Your task to perform on an android device: set the timer Image 0: 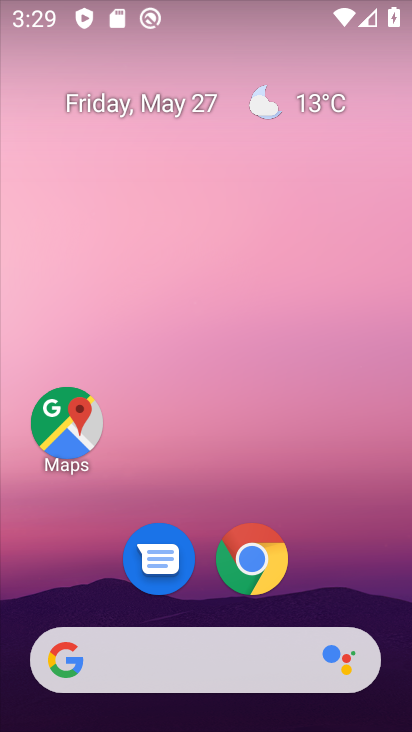
Step 0: drag from (161, 360) to (98, 140)
Your task to perform on an android device: set the timer Image 1: 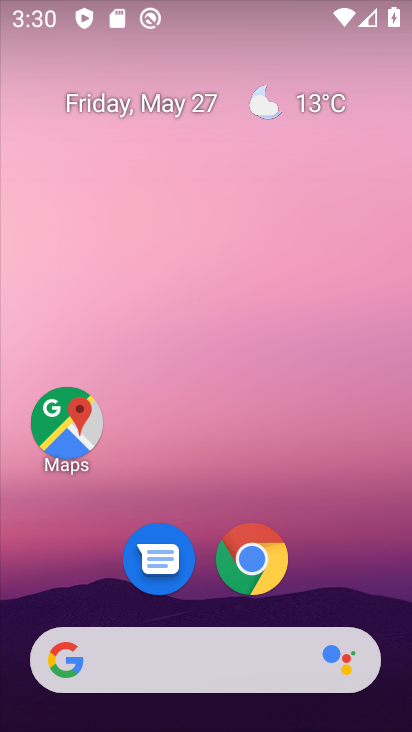
Step 1: drag from (284, 708) to (163, 4)
Your task to perform on an android device: set the timer Image 2: 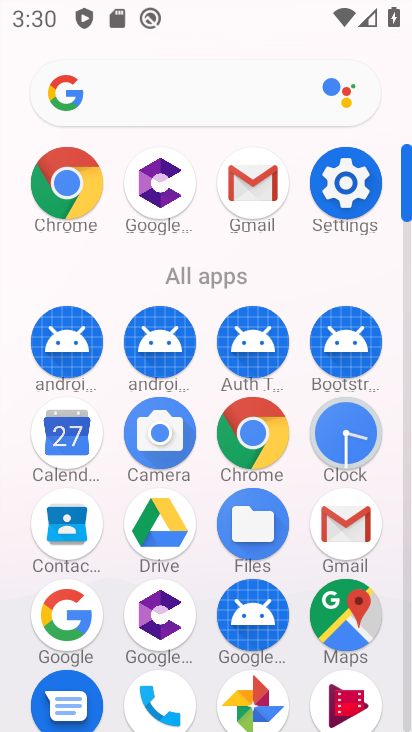
Step 2: drag from (199, 408) to (127, 57)
Your task to perform on an android device: set the timer Image 3: 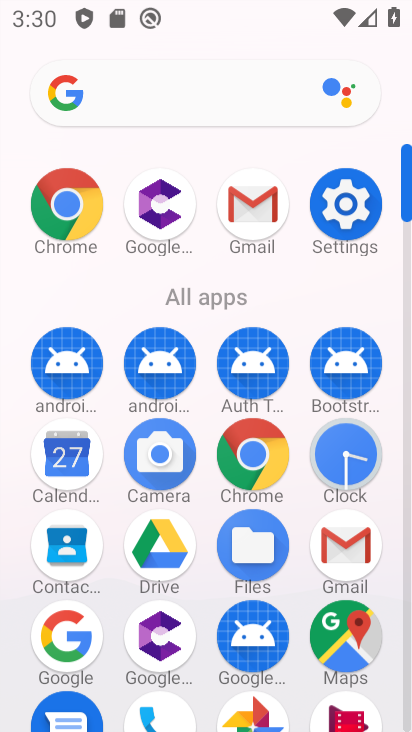
Step 3: click (93, 13)
Your task to perform on an android device: set the timer Image 4: 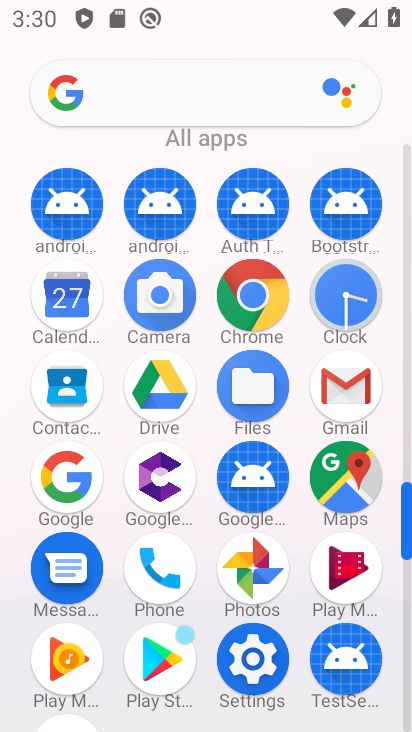
Step 4: click (340, 432)
Your task to perform on an android device: set the timer Image 5: 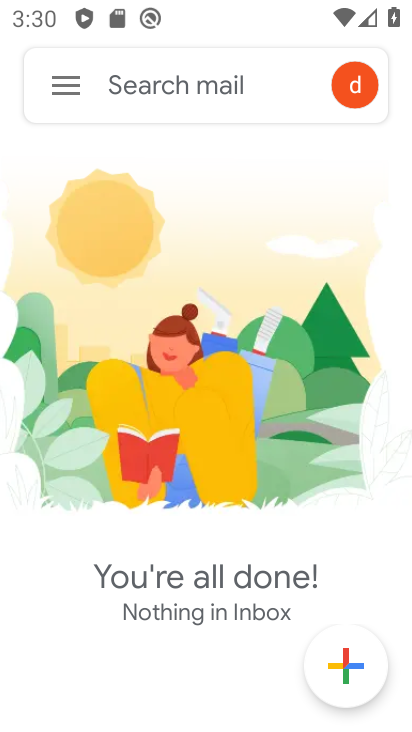
Step 5: drag from (283, 527) to (179, 5)
Your task to perform on an android device: set the timer Image 6: 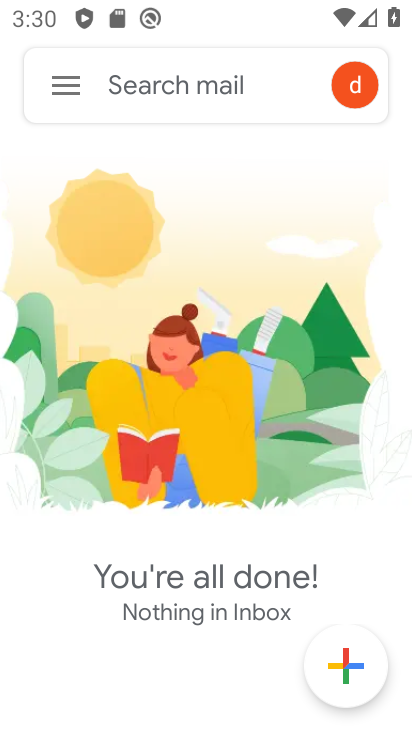
Step 6: click (111, 22)
Your task to perform on an android device: set the timer Image 7: 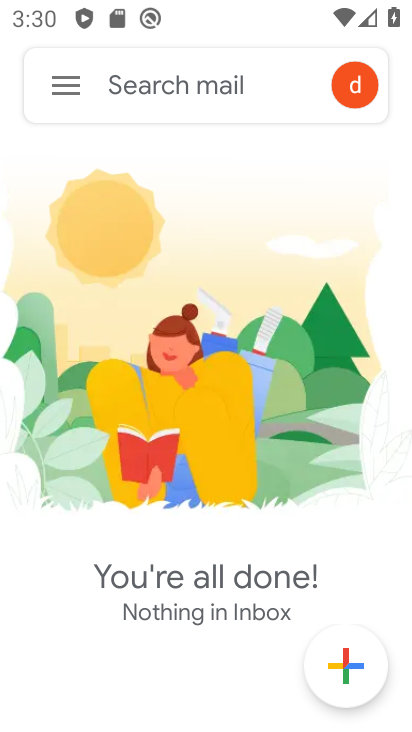
Step 7: click (93, 136)
Your task to perform on an android device: set the timer Image 8: 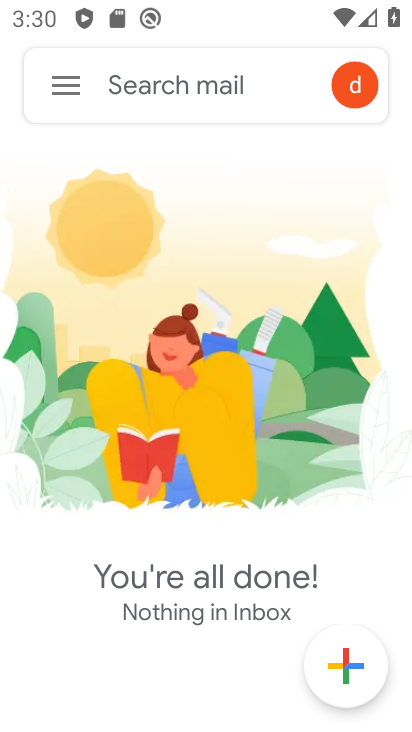
Step 8: press back button
Your task to perform on an android device: set the timer Image 9: 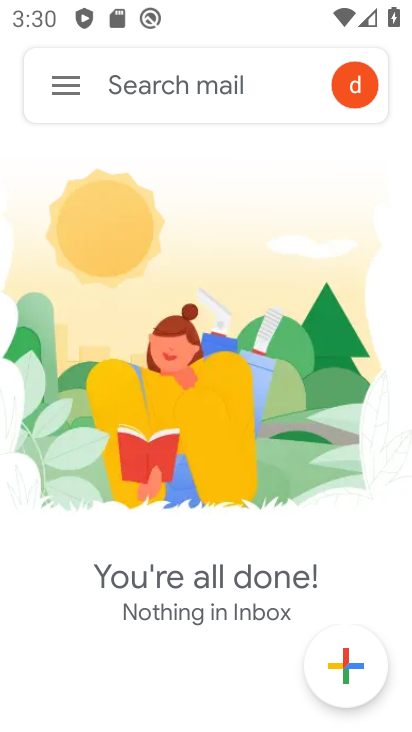
Step 9: click (74, 67)
Your task to perform on an android device: set the timer Image 10: 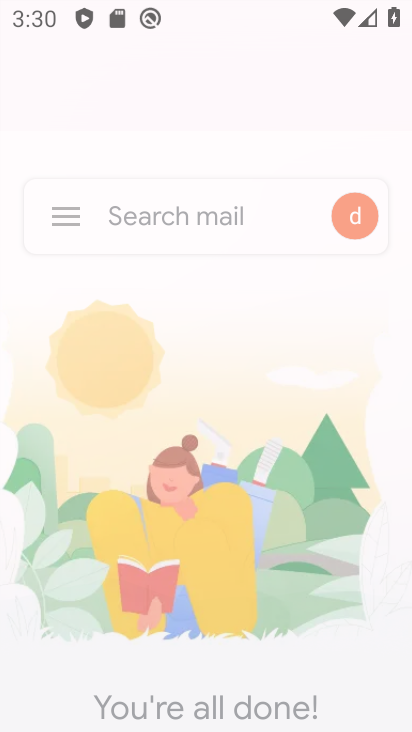
Step 10: drag from (162, 272) to (124, 92)
Your task to perform on an android device: set the timer Image 11: 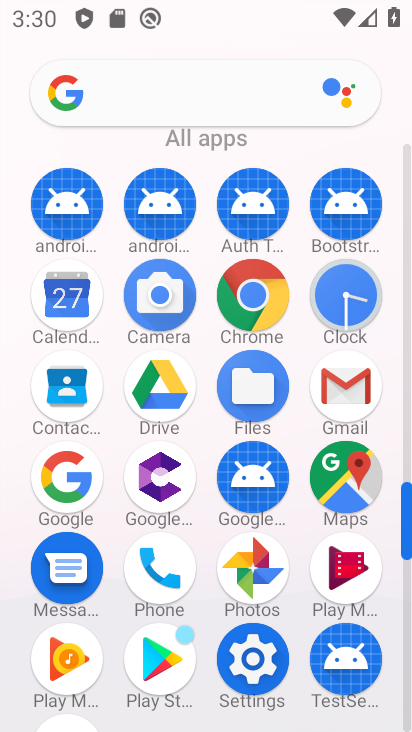
Step 11: click (137, 137)
Your task to perform on an android device: set the timer Image 12: 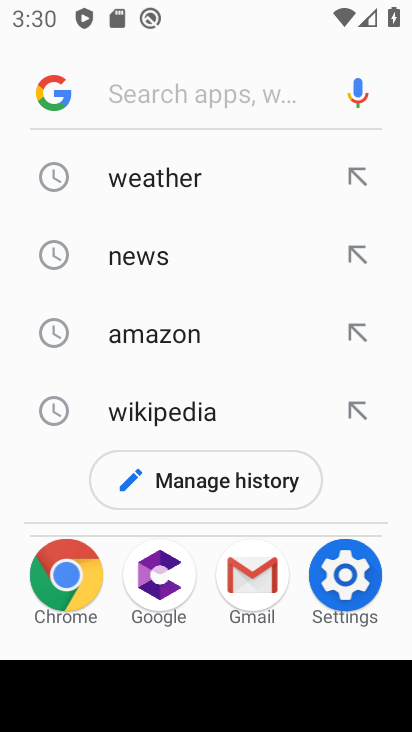
Step 12: drag from (189, 377) to (81, 121)
Your task to perform on an android device: set the timer Image 13: 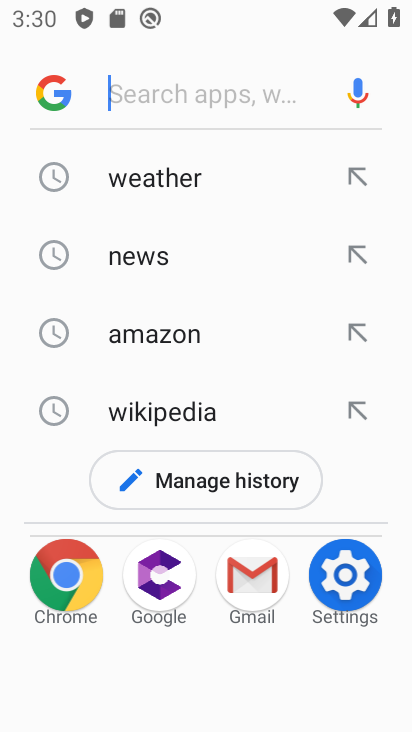
Step 13: press back button
Your task to perform on an android device: set the timer Image 14: 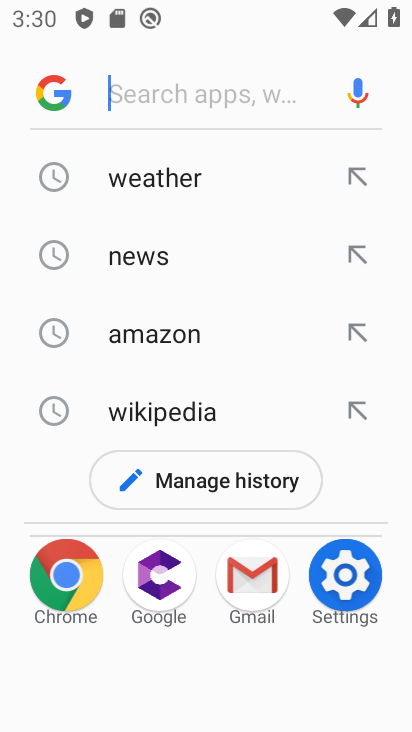
Step 14: press back button
Your task to perform on an android device: set the timer Image 15: 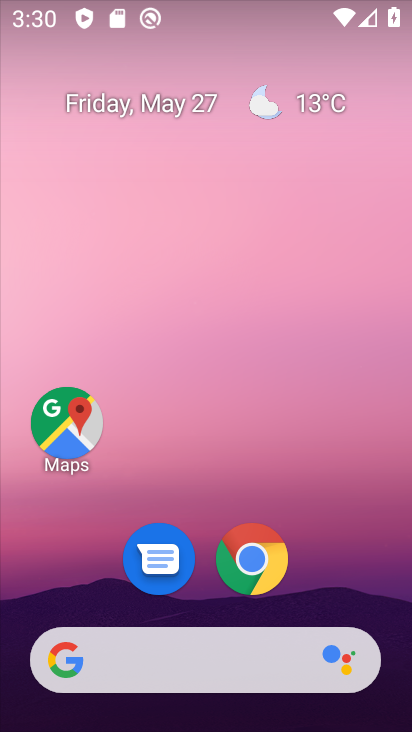
Step 15: press back button
Your task to perform on an android device: set the timer Image 16: 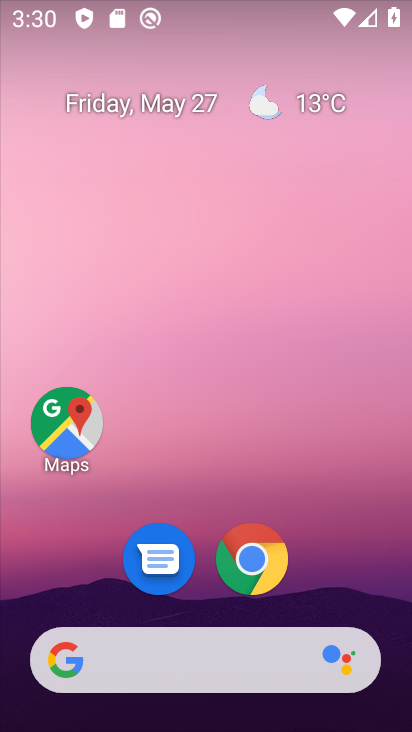
Step 16: press back button
Your task to perform on an android device: set the timer Image 17: 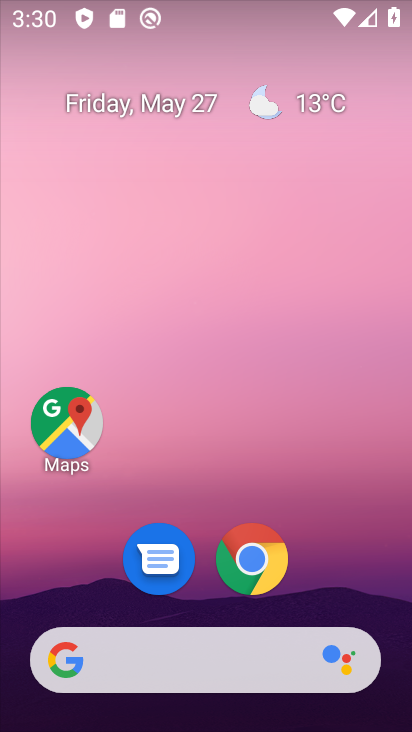
Step 17: press back button
Your task to perform on an android device: set the timer Image 18: 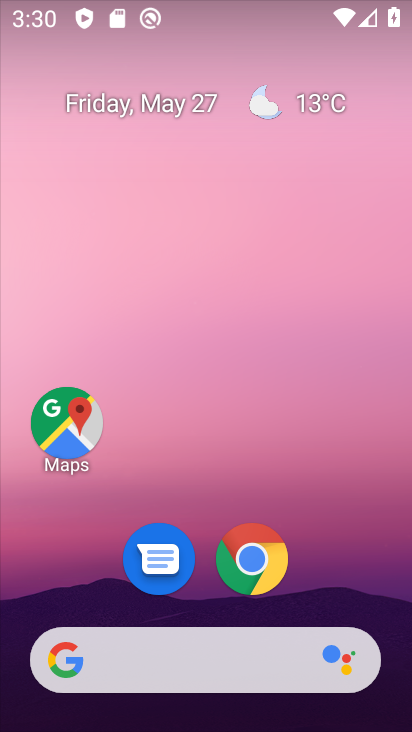
Step 18: drag from (267, 688) to (85, 55)
Your task to perform on an android device: set the timer Image 19: 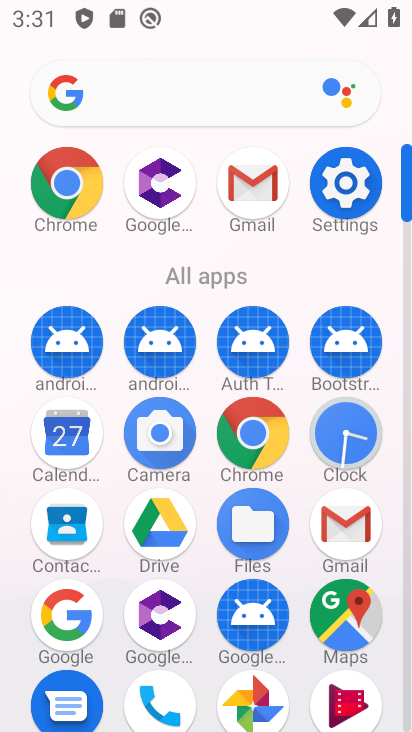
Step 19: click (334, 417)
Your task to perform on an android device: set the timer Image 20: 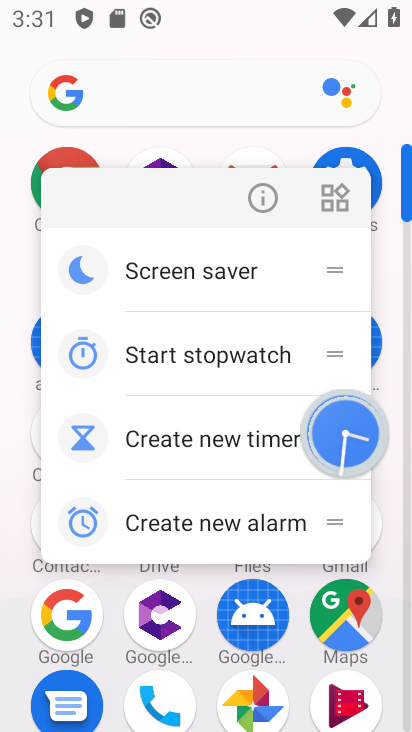
Step 20: click (337, 440)
Your task to perform on an android device: set the timer Image 21: 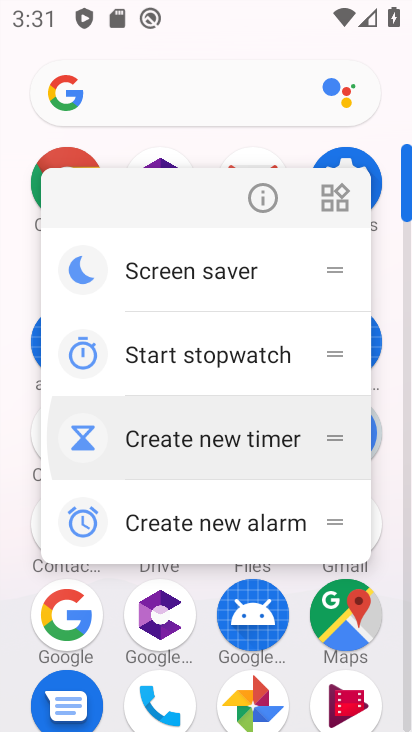
Step 21: click (336, 434)
Your task to perform on an android device: set the timer Image 22: 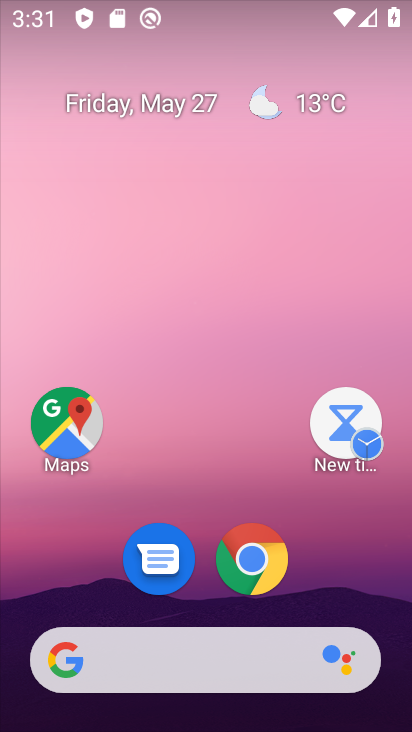
Step 22: drag from (226, 574) to (72, 0)
Your task to perform on an android device: set the timer Image 23: 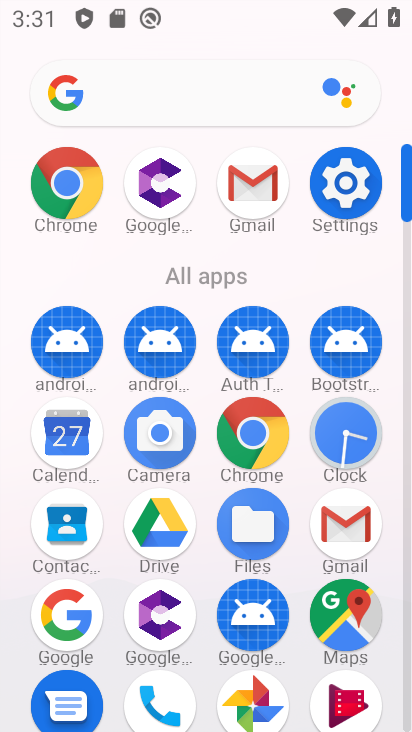
Step 23: drag from (167, 338) to (176, 157)
Your task to perform on an android device: set the timer Image 24: 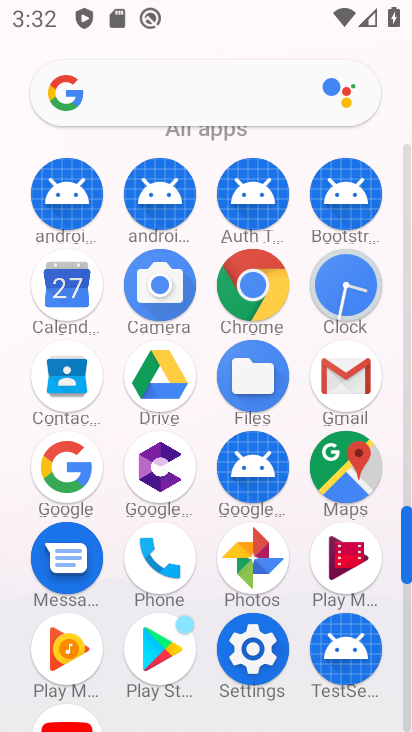
Step 24: click (254, 653)
Your task to perform on an android device: set the timer Image 25: 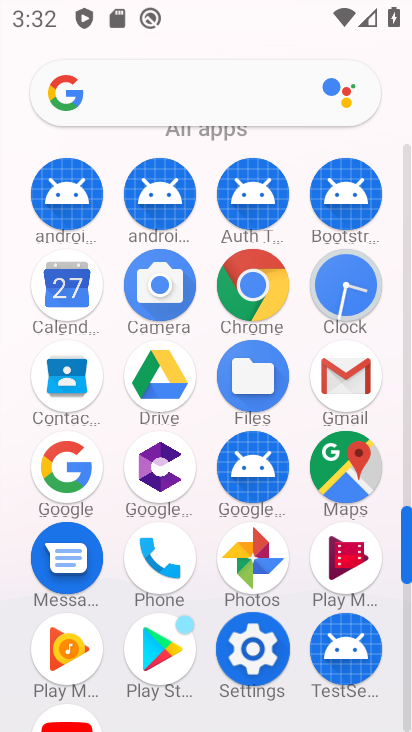
Step 25: click (253, 654)
Your task to perform on an android device: set the timer Image 26: 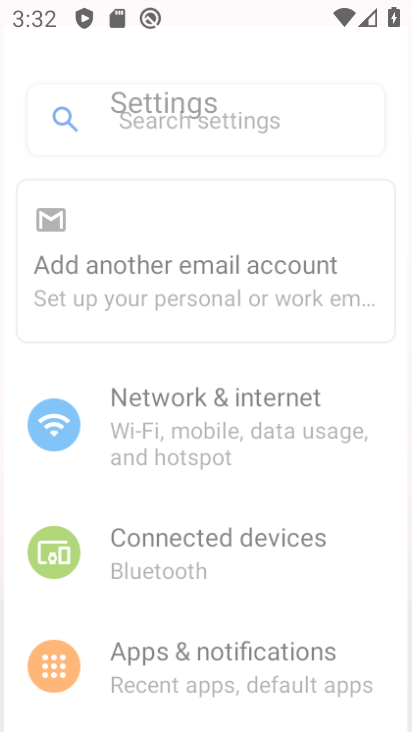
Step 26: click (252, 655)
Your task to perform on an android device: set the timer Image 27: 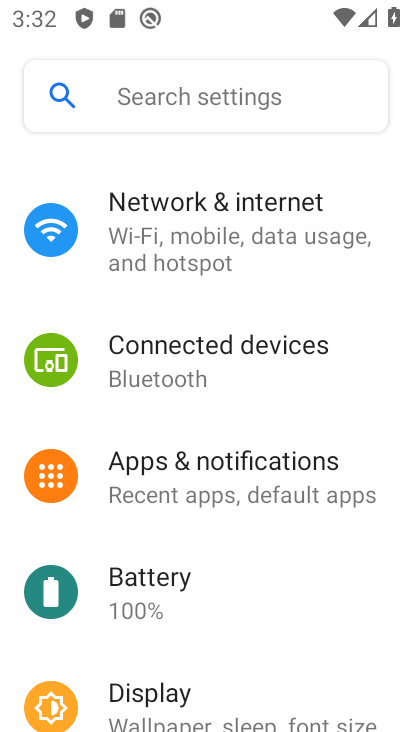
Step 27: click (249, 661)
Your task to perform on an android device: set the timer Image 28: 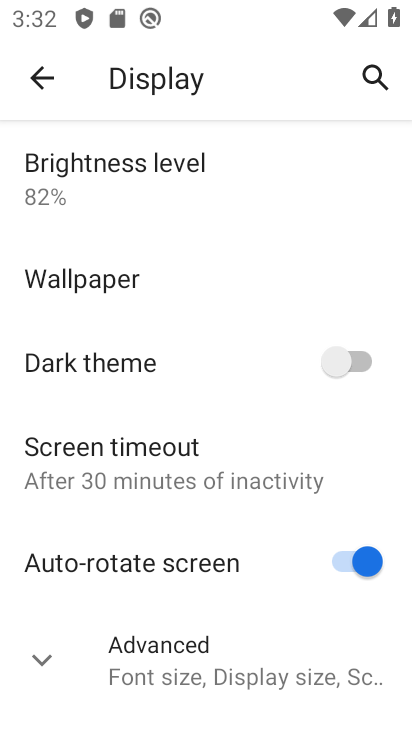
Step 28: click (31, 79)
Your task to perform on an android device: set the timer Image 29: 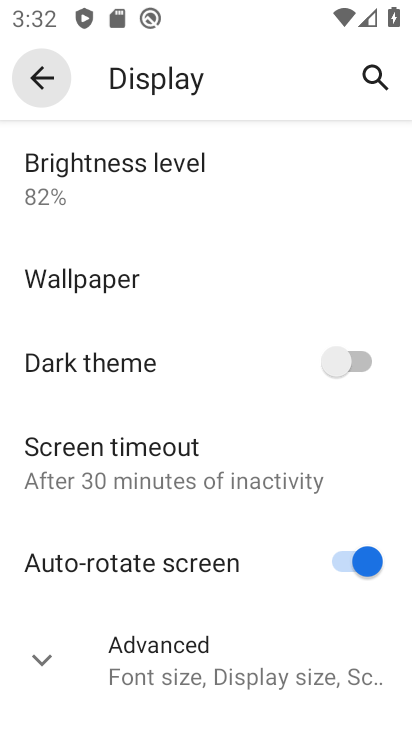
Step 29: click (31, 79)
Your task to perform on an android device: set the timer Image 30: 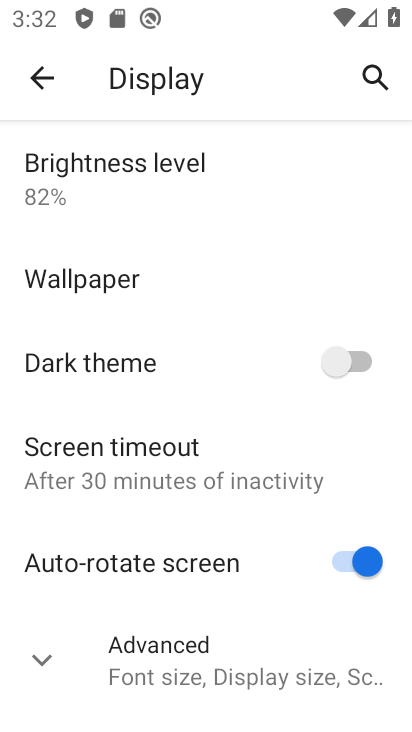
Step 30: click (31, 79)
Your task to perform on an android device: set the timer Image 31: 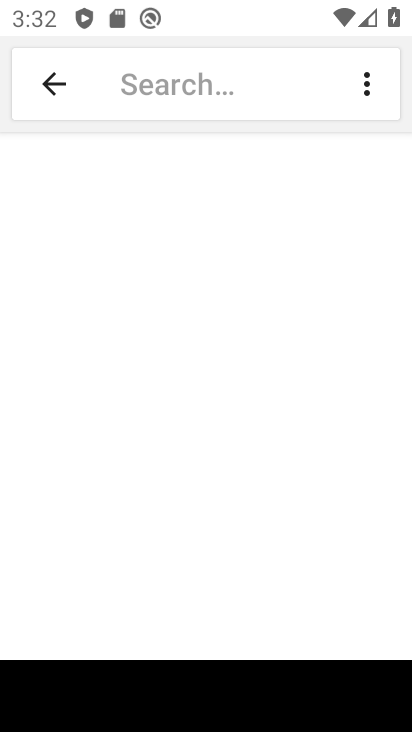
Step 31: drag from (197, 492) to (186, 237)
Your task to perform on an android device: set the timer Image 32: 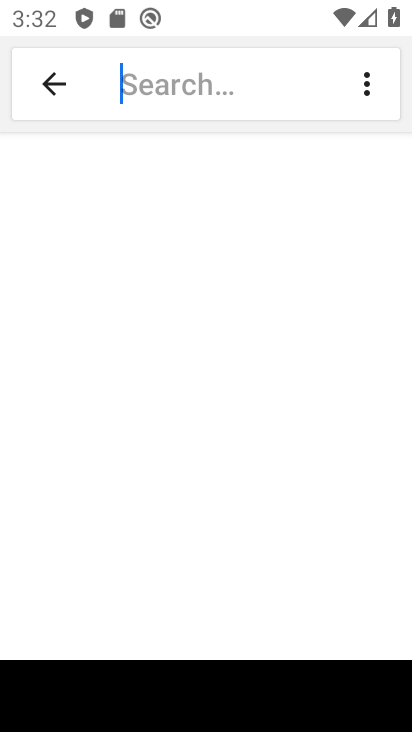
Step 32: drag from (190, 487) to (170, 214)
Your task to perform on an android device: set the timer Image 33: 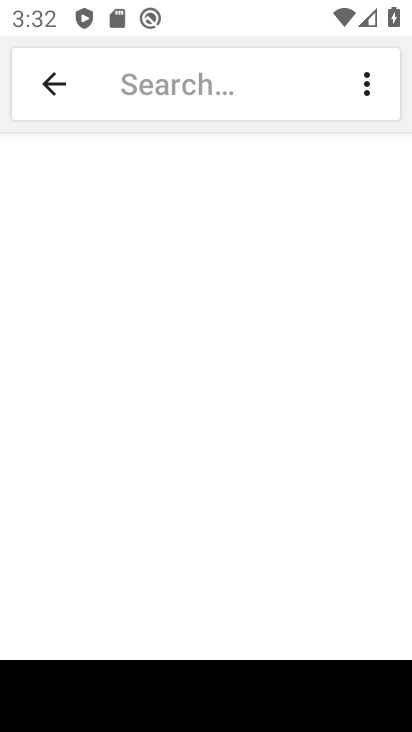
Step 33: drag from (130, 192) to (130, 158)
Your task to perform on an android device: set the timer Image 34: 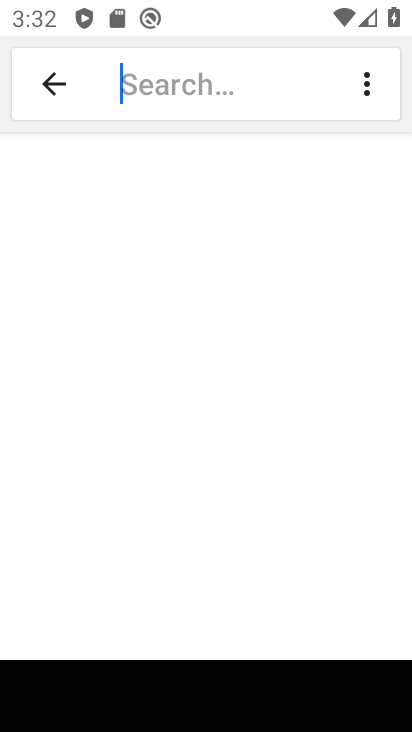
Step 34: drag from (165, 467) to (168, 173)
Your task to perform on an android device: set the timer Image 35: 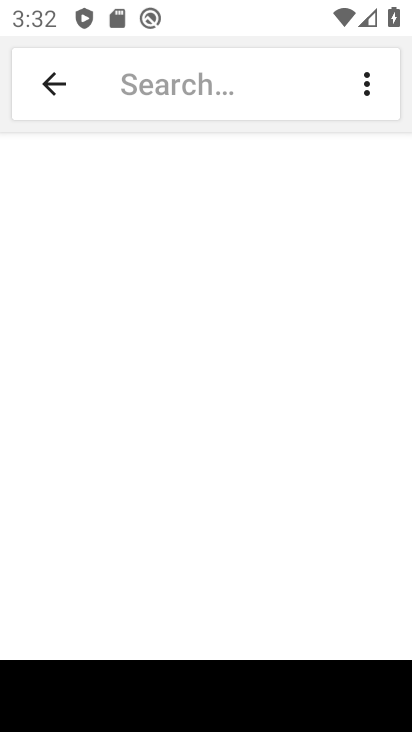
Step 35: drag from (188, 218) to (189, 157)
Your task to perform on an android device: set the timer Image 36: 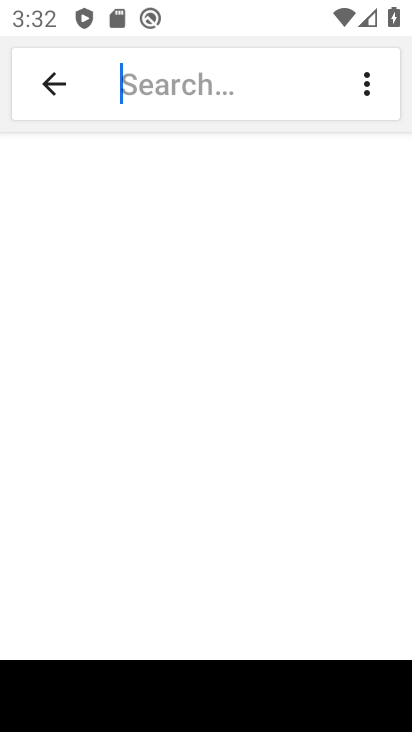
Step 36: click (161, 109)
Your task to perform on an android device: set the timer Image 37: 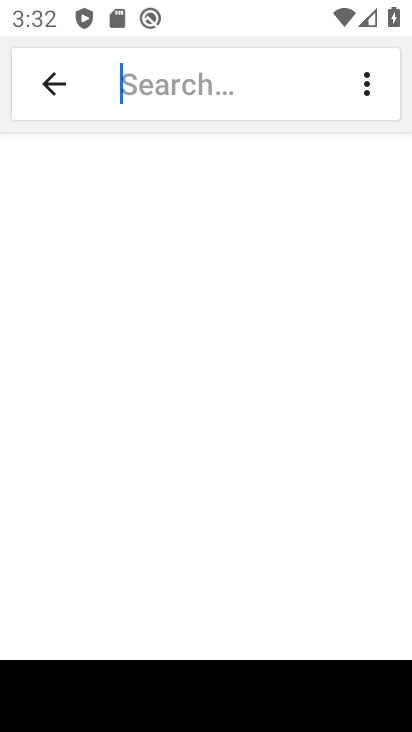
Step 37: click (54, 84)
Your task to perform on an android device: set the timer Image 38: 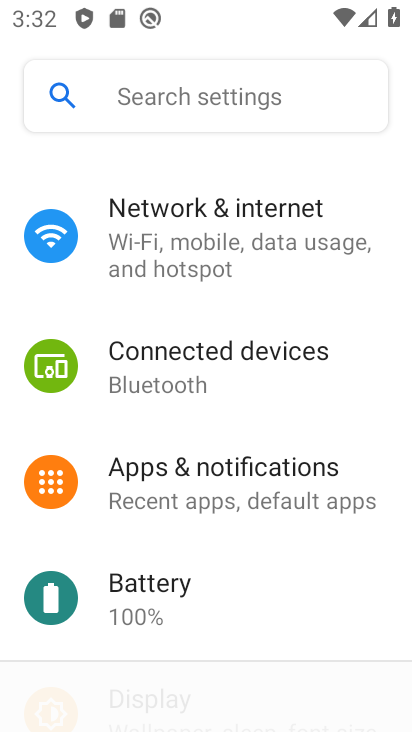
Step 38: click (55, 84)
Your task to perform on an android device: set the timer Image 39: 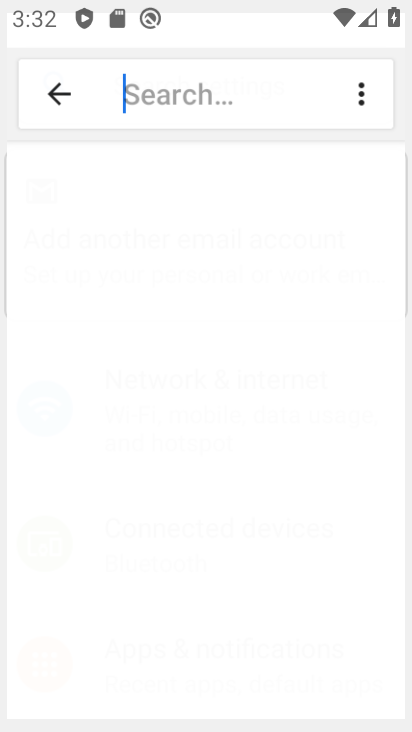
Step 39: drag from (180, 216) to (186, 141)
Your task to perform on an android device: set the timer Image 40: 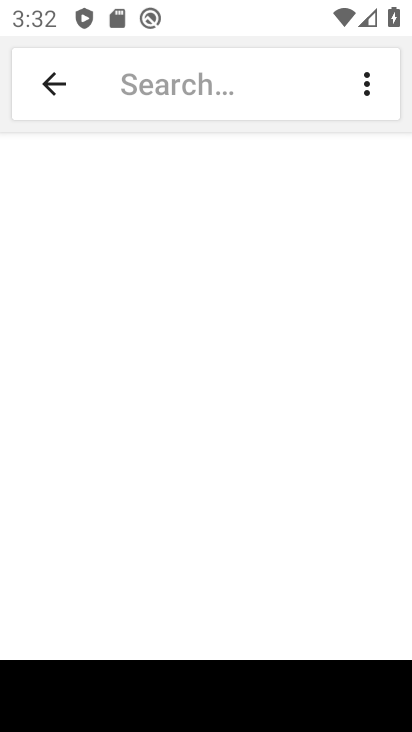
Step 40: drag from (196, 465) to (192, 95)
Your task to perform on an android device: set the timer Image 41: 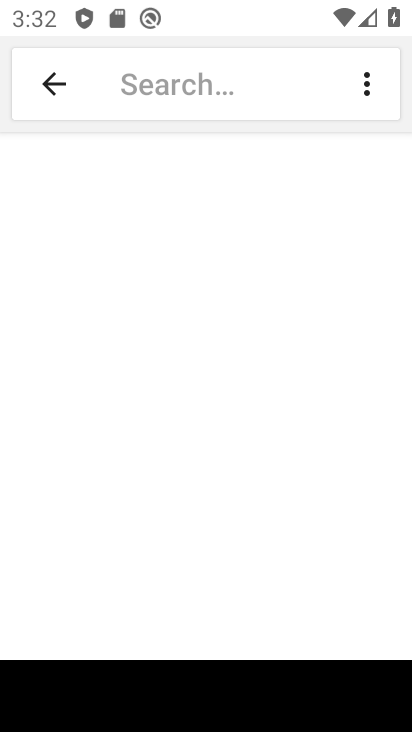
Step 41: drag from (173, 383) to (160, 49)
Your task to perform on an android device: set the timer Image 42: 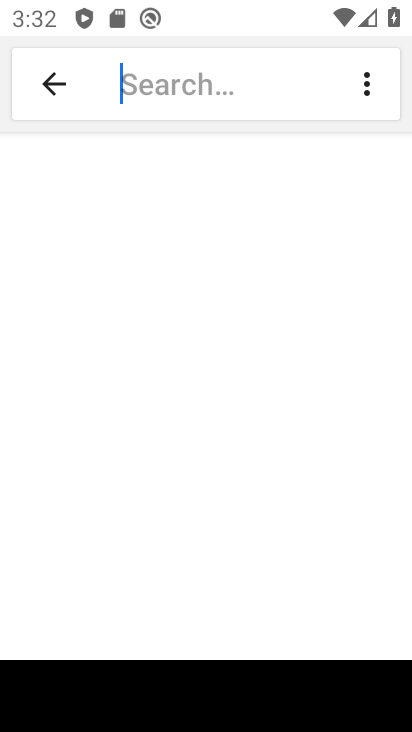
Step 42: click (52, 82)
Your task to perform on an android device: set the timer Image 43: 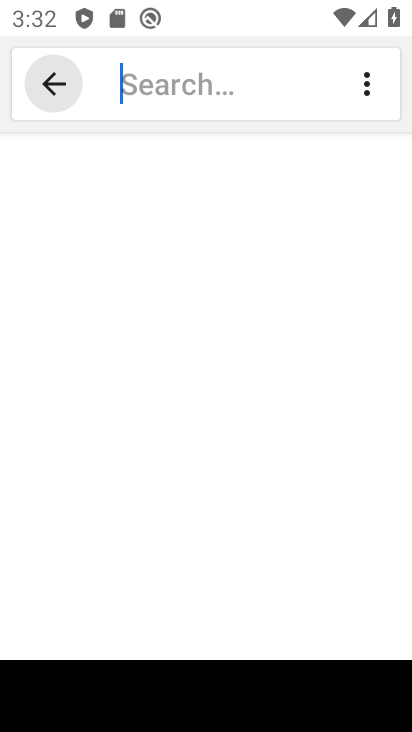
Step 43: click (53, 82)
Your task to perform on an android device: set the timer Image 44: 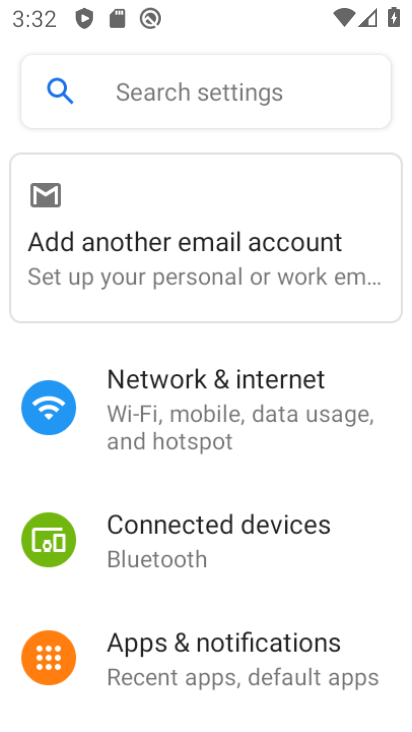
Step 44: click (53, 82)
Your task to perform on an android device: set the timer Image 45: 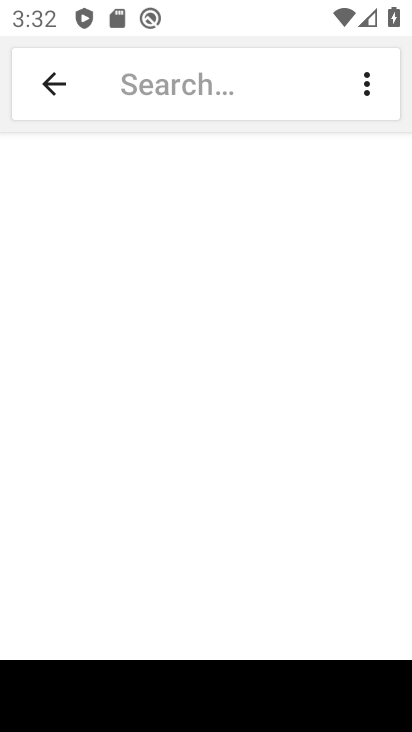
Step 45: drag from (195, 174) to (195, 129)
Your task to perform on an android device: set the timer Image 46: 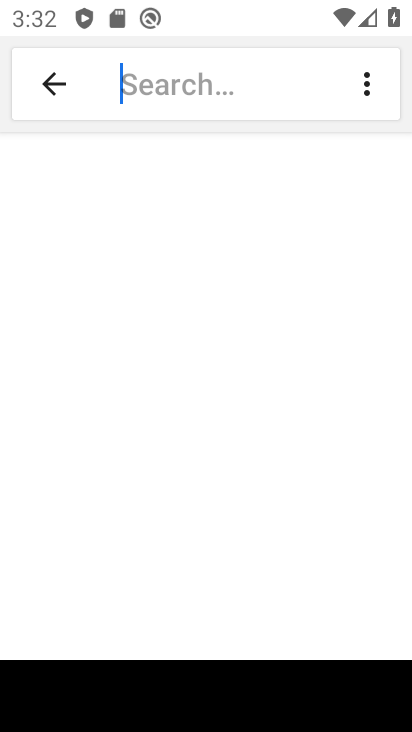
Step 46: click (75, 1)
Your task to perform on an android device: set the timer Image 47: 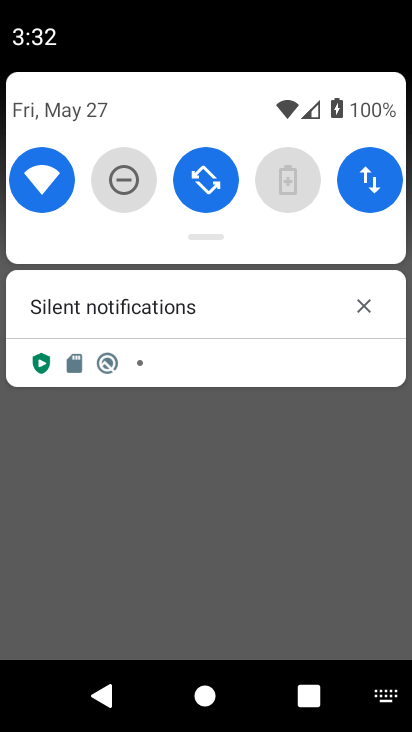
Step 47: click (55, 81)
Your task to perform on an android device: set the timer Image 48: 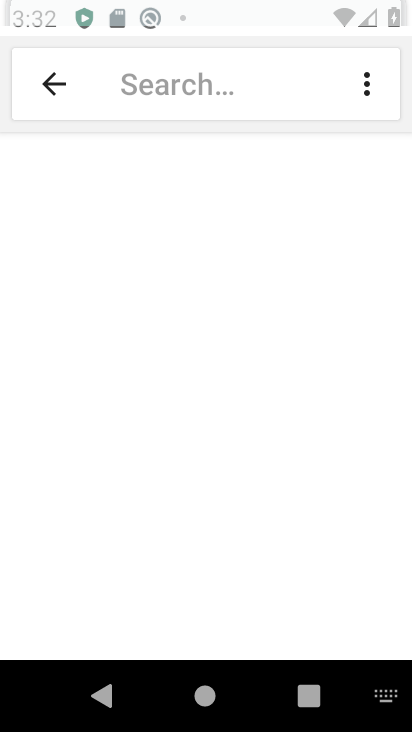
Step 48: click (55, 81)
Your task to perform on an android device: set the timer Image 49: 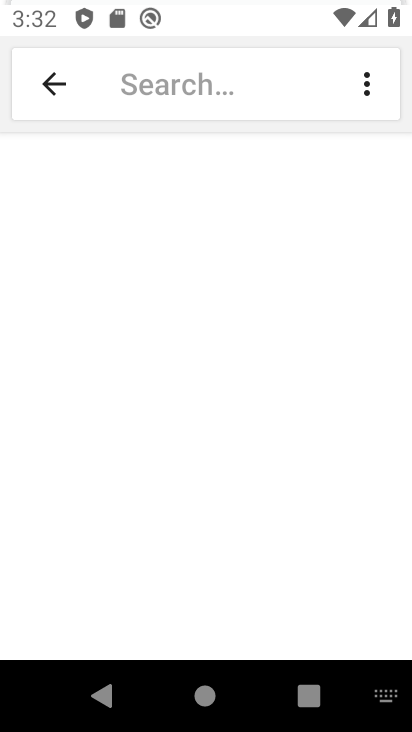
Step 49: drag from (219, 408) to (110, 112)
Your task to perform on an android device: set the timer Image 50: 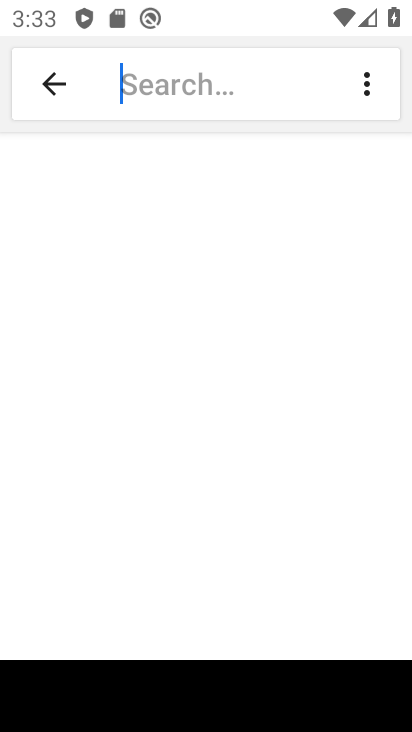
Step 50: click (45, 99)
Your task to perform on an android device: set the timer Image 51: 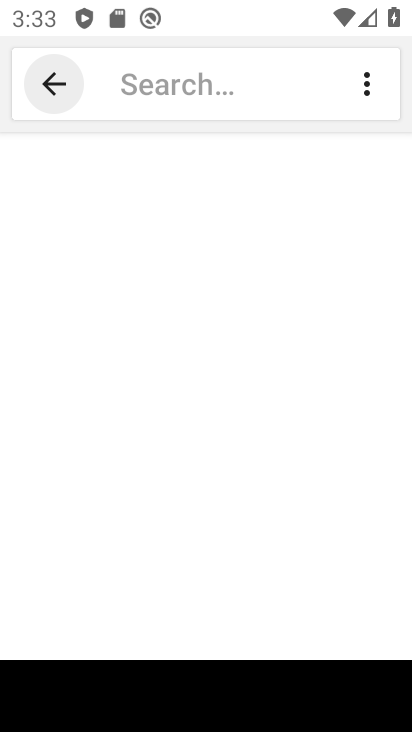
Step 51: click (47, 86)
Your task to perform on an android device: set the timer Image 52: 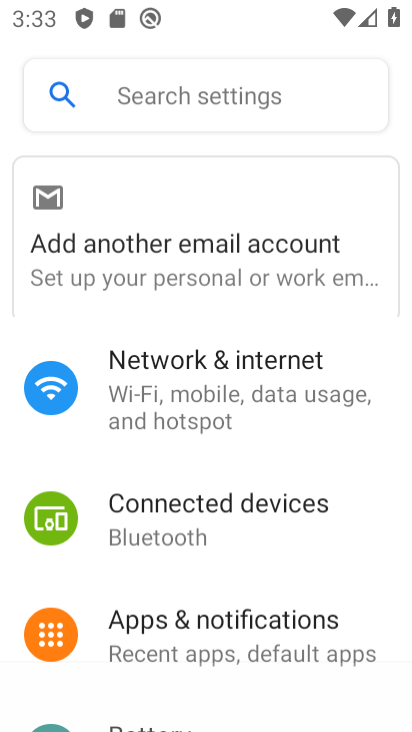
Step 52: click (47, 86)
Your task to perform on an android device: set the timer Image 53: 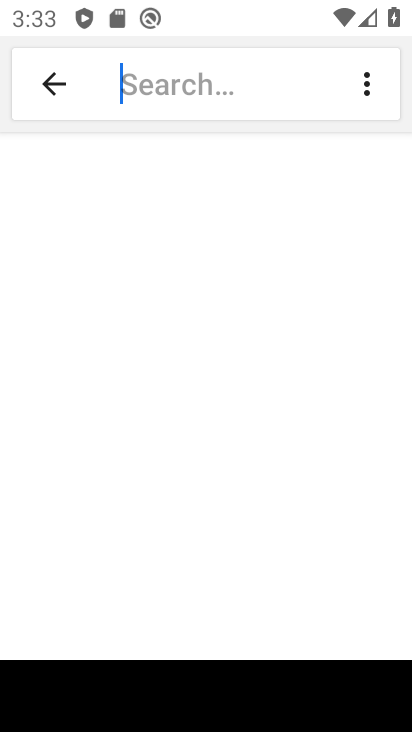
Step 53: drag from (180, 313) to (128, 40)
Your task to perform on an android device: set the timer Image 54: 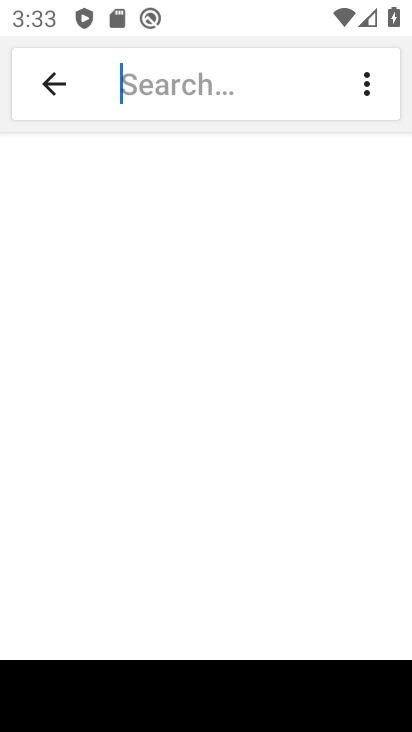
Step 54: click (53, 78)
Your task to perform on an android device: set the timer Image 55: 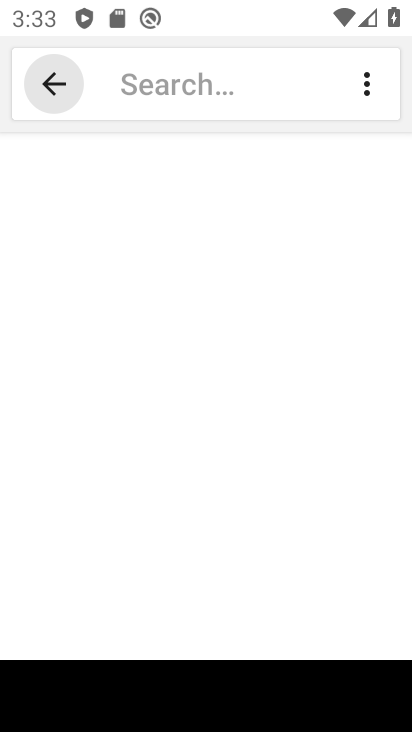
Step 55: click (54, 87)
Your task to perform on an android device: set the timer Image 56: 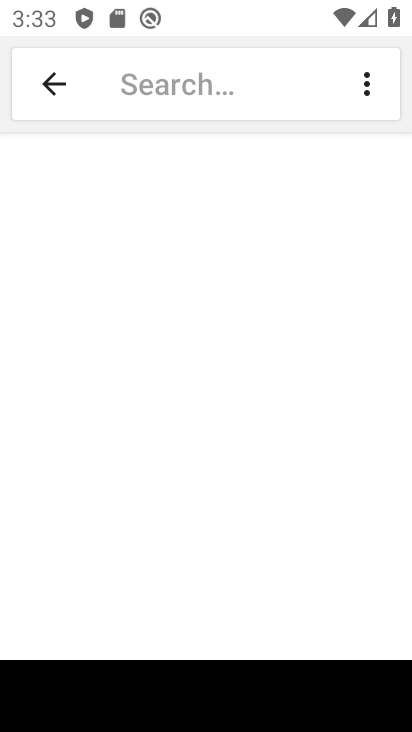
Step 56: click (54, 87)
Your task to perform on an android device: set the timer Image 57: 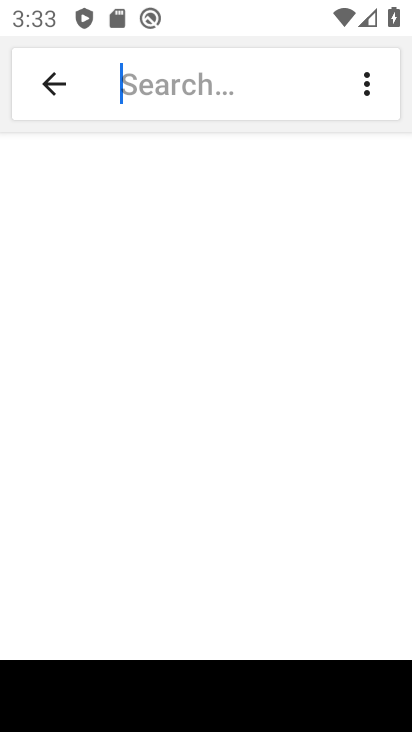
Step 57: drag from (168, 426) to (167, 179)
Your task to perform on an android device: set the timer Image 58: 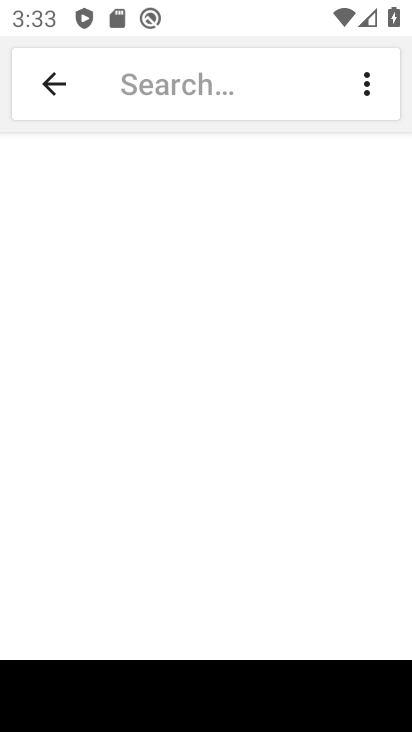
Step 58: drag from (216, 490) to (153, 120)
Your task to perform on an android device: set the timer Image 59: 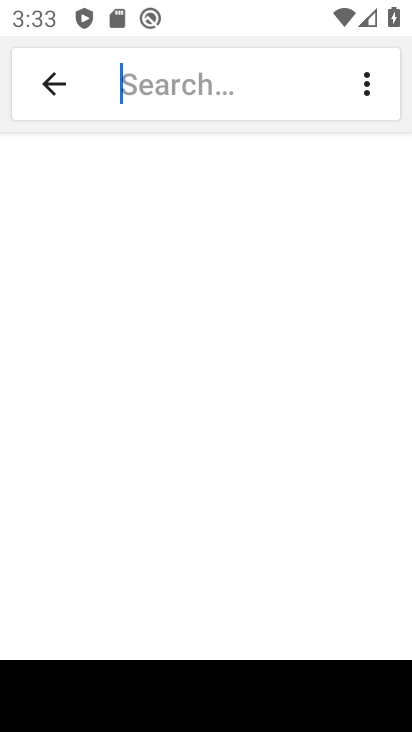
Step 59: drag from (199, 368) to (185, 98)
Your task to perform on an android device: set the timer Image 60: 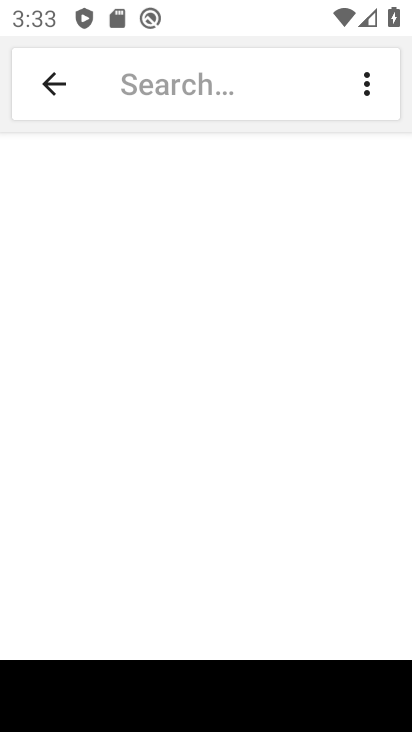
Step 60: drag from (272, 579) to (223, 101)
Your task to perform on an android device: set the timer Image 61: 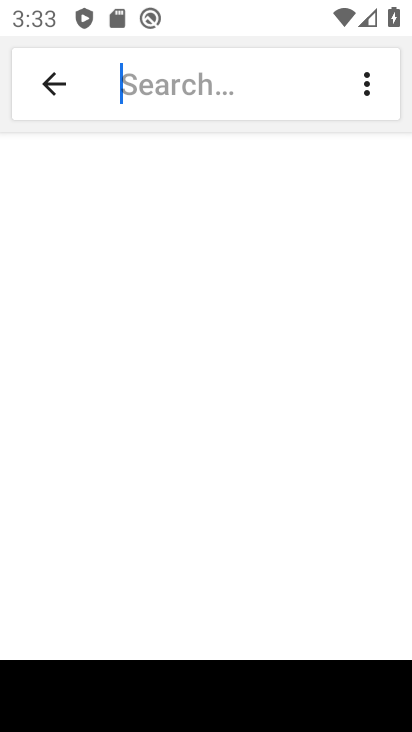
Step 61: drag from (232, 519) to (173, 23)
Your task to perform on an android device: set the timer Image 62: 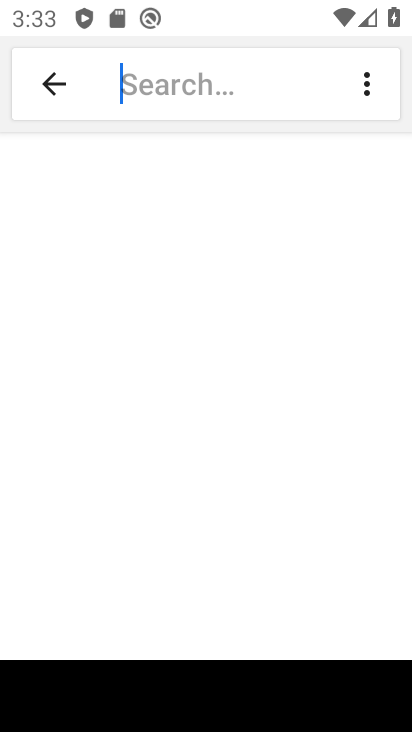
Step 62: drag from (227, 481) to (199, 146)
Your task to perform on an android device: set the timer Image 63: 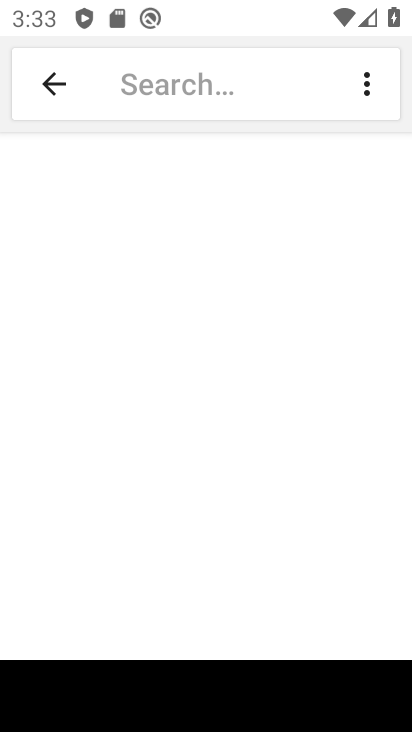
Step 63: drag from (150, 221) to (132, 56)
Your task to perform on an android device: set the timer Image 64: 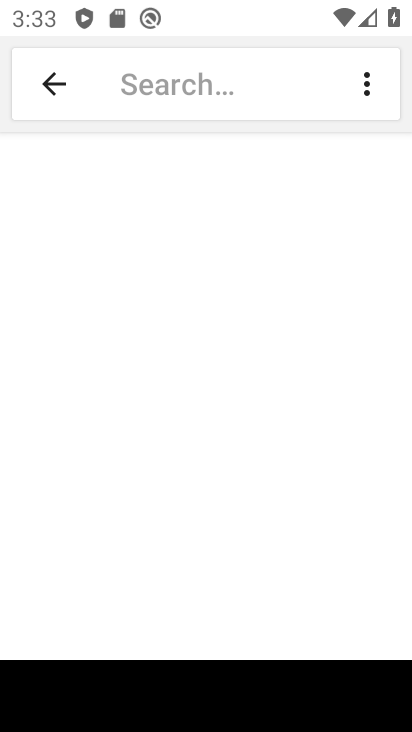
Step 64: click (49, 88)
Your task to perform on an android device: set the timer Image 65: 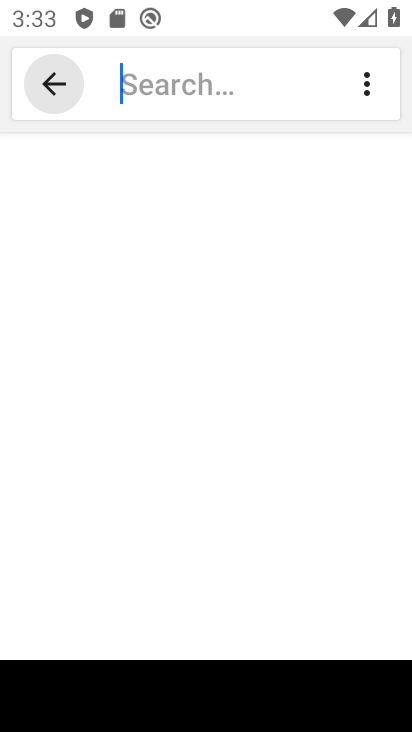
Step 65: click (49, 88)
Your task to perform on an android device: set the timer Image 66: 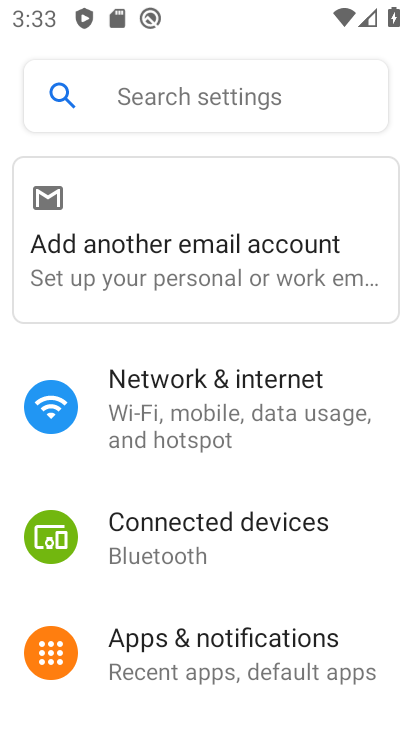
Step 66: click (176, 175)
Your task to perform on an android device: set the timer Image 67: 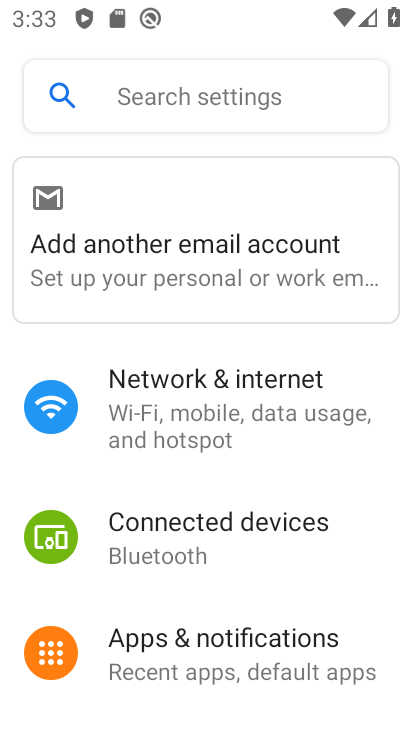
Step 67: drag from (196, 501) to (196, 132)
Your task to perform on an android device: set the timer Image 68: 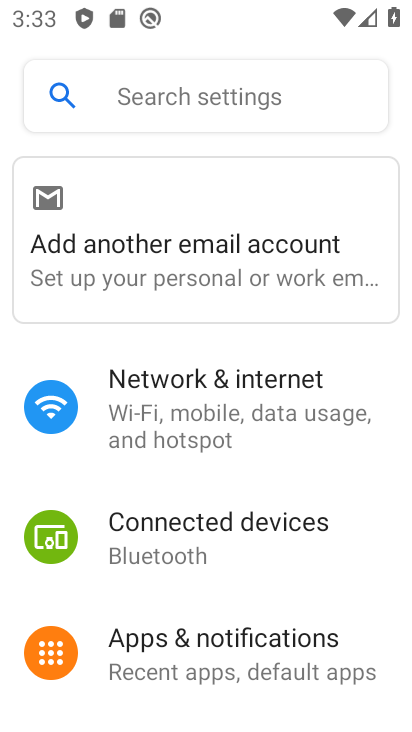
Step 68: drag from (210, 270) to (219, 164)
Your task to perform on an android device: set the timer Image 69: 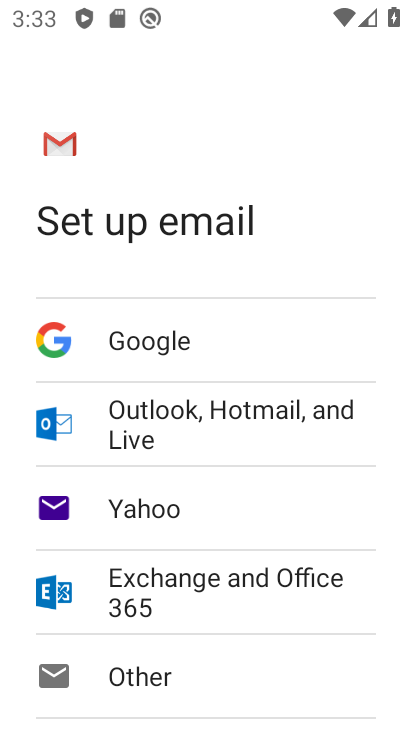
Step 69: drag from (217, 379) to (217, 228)
Your task to perform on an android device: set the timer Image 70: 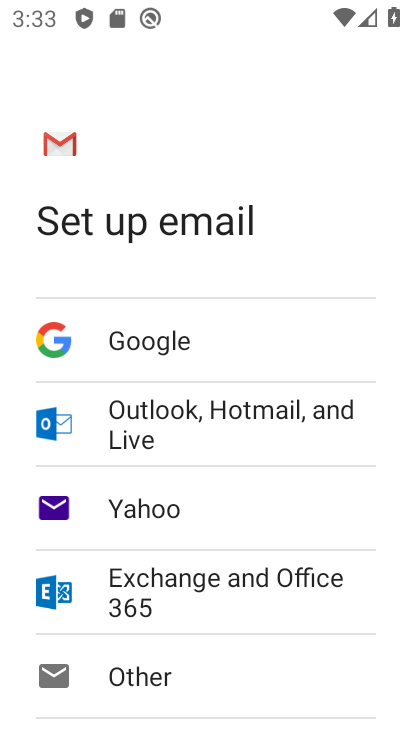
Step 70: click (170, 192)
Your task to perform on an android device: set the timer Image 71: 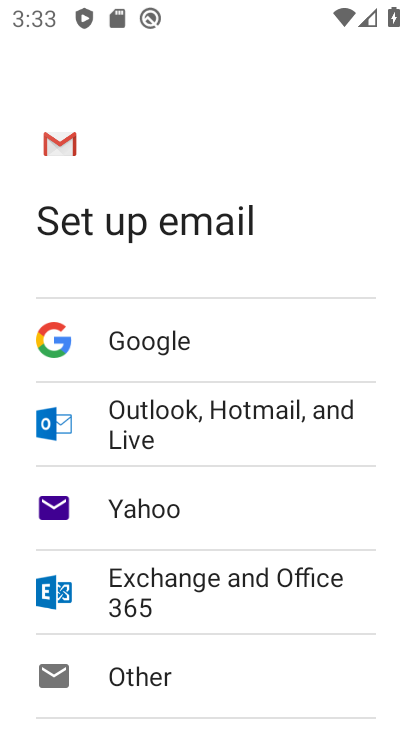
Step 71: drag from (207, 510) to (169, 85)
Your task to perform on an android device: set the timer Image 72: 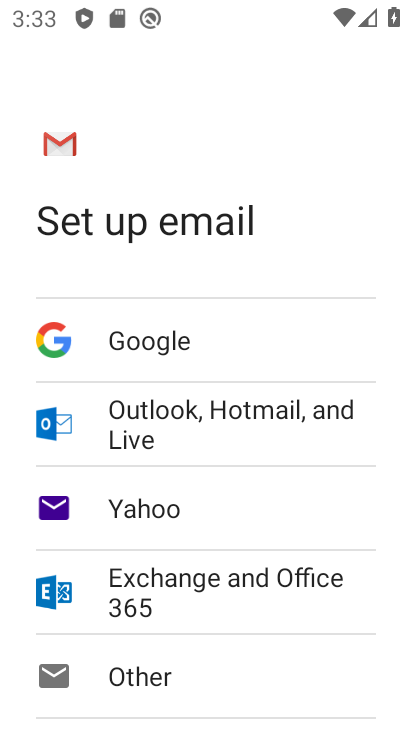
Step 72: drag from (115, 95) to (76, 81)
Your task to perform on an android device: set the timer Image 73: 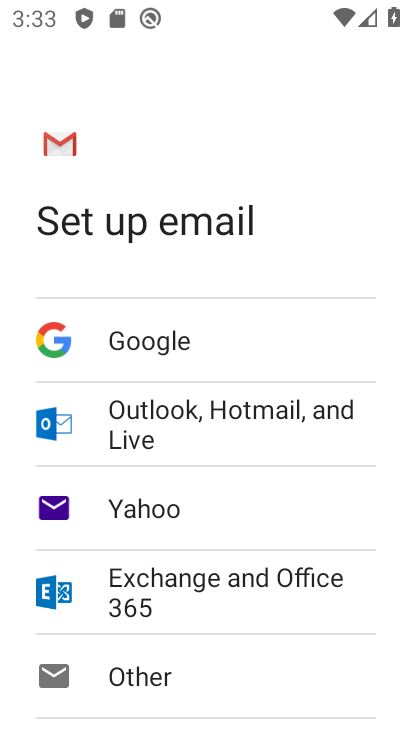
Step 73: drag from (96, 311) to (77, 184)
Your task to perform on an android device: set the timer Image 74: 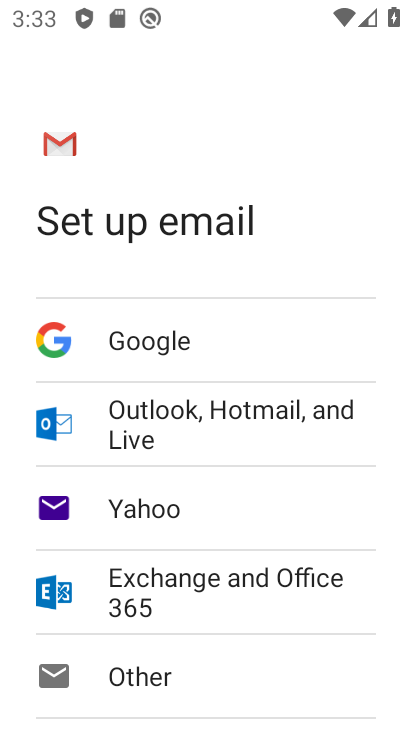
Step 74: press back button
Your task to perform on an android device: set the timer Image 75: 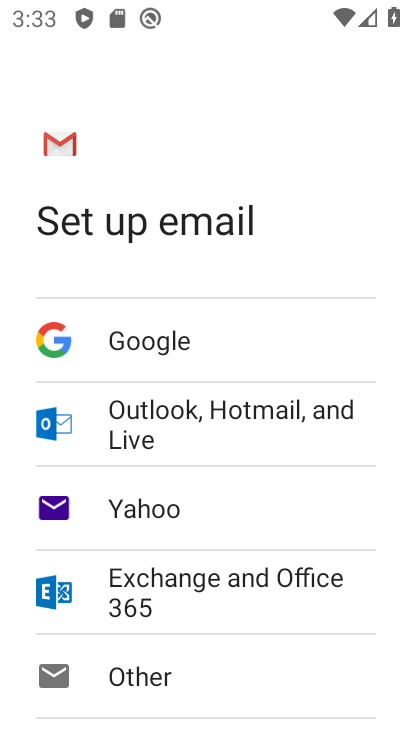
Step 75: press back button
Your task to perform on an android device: set the timer Image 76: 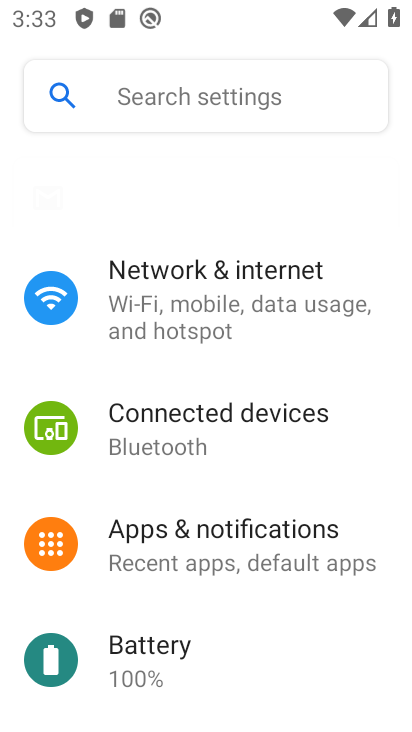
Step 76: press back button
Your task to perform on an android device: set the timer Image 77: 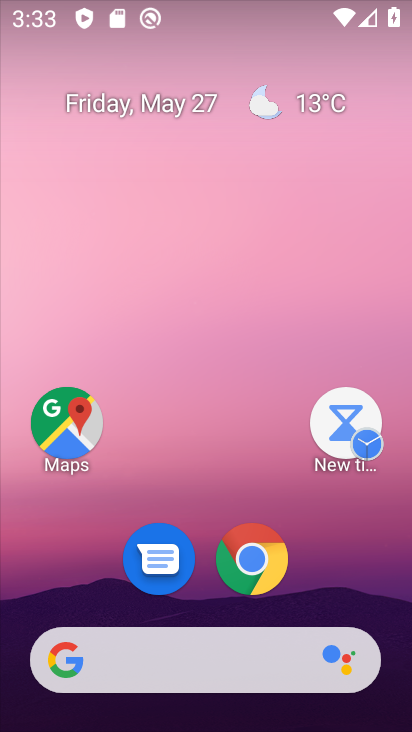
Step 77: drag from (234, 579) to (163, 123)
Your task to perform on an android device: set the timer Image 78: 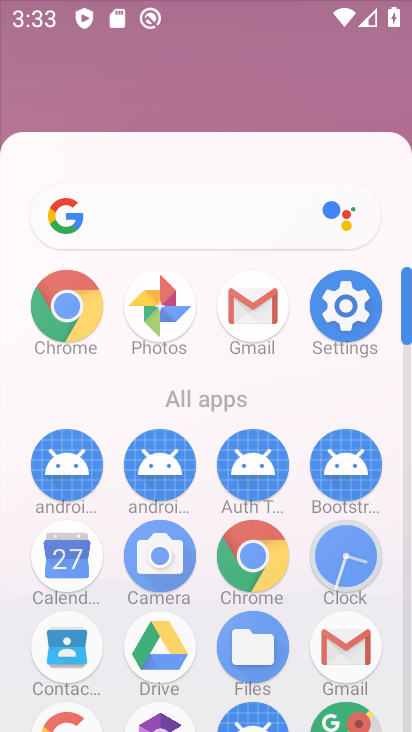
Step 78: drag from (350, 641) to (253, 50)
Your task to perform on an android device: set the timer Image 79: 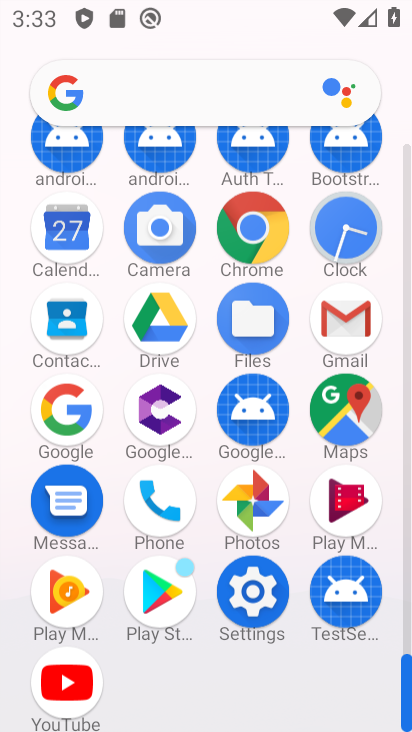
Step 79: drag from (274, 299) to (263, 222)
Your task to perform on an android device: set the timer Image 80: 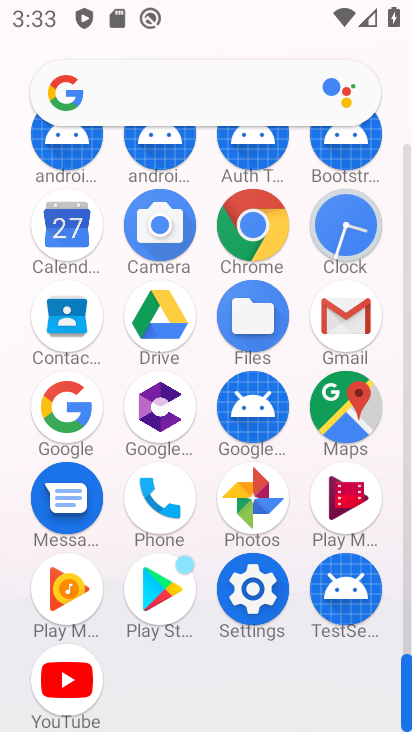
Step 80: click (350, 217)
Your task to perform on an android device: set the timer Image 81: 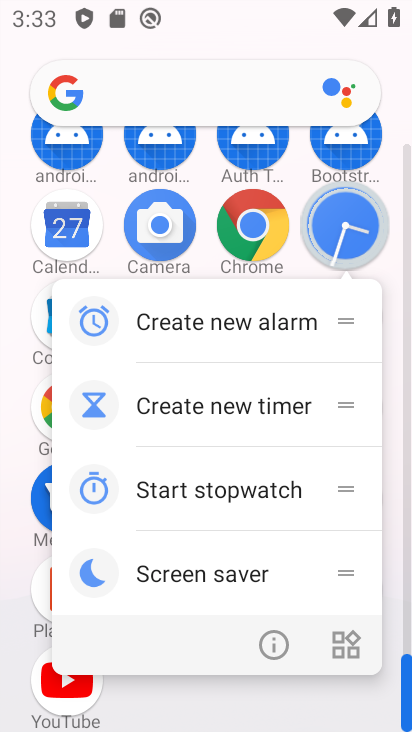
Step 81: click (351, 217)
Your task to perform on an android device: set the timer Image 82: 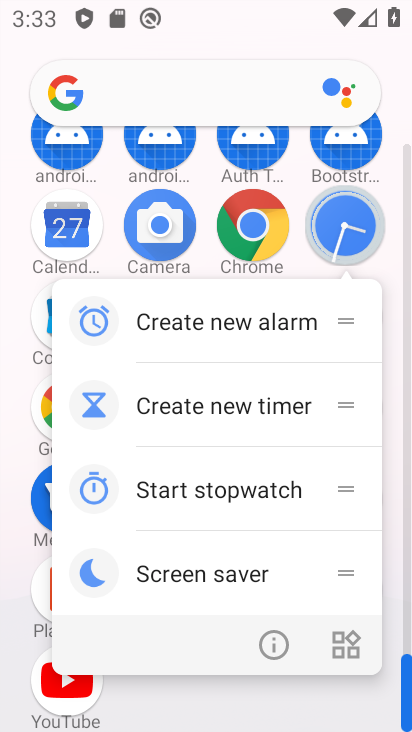
Step 82: click (349, 219)
Your task to perform on an android device: set the timer Image 83: 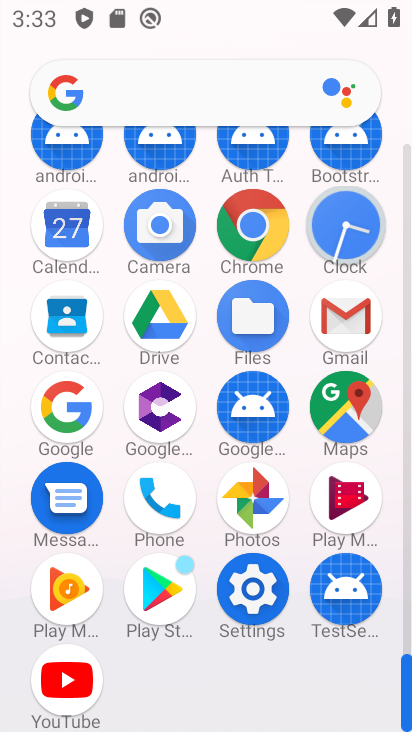
Step 83: click (347, 220)
Your task to perform on an android device: set the timer Image 84: 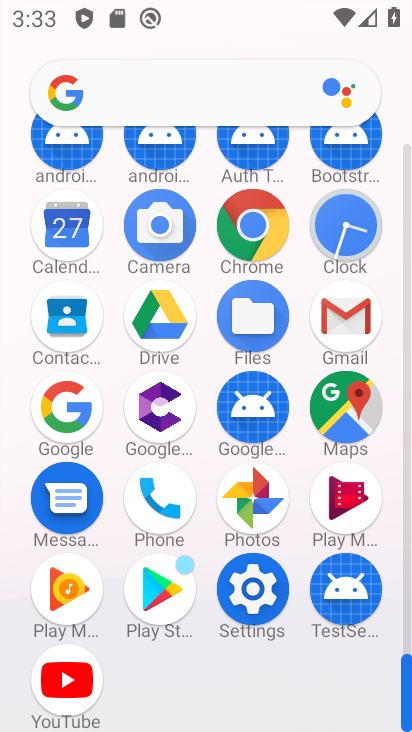
Step 84: click (345, 221)
Your task to perform on an android device: set the timer Image 85: 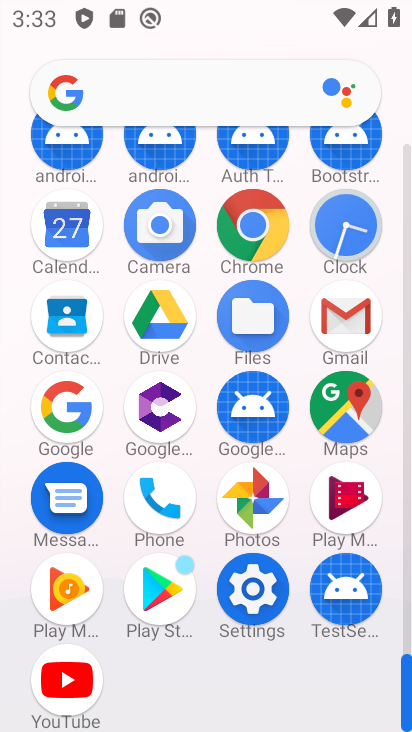
Step 85: click (340, 227)
Your task to perform on an android device: set the timer Image 86: 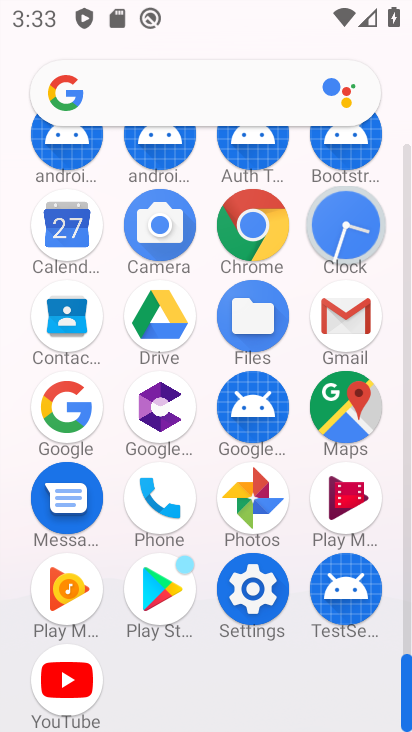
Step 86: click (337, 228)
Your task to perform on an android device: set the timer Image 87: 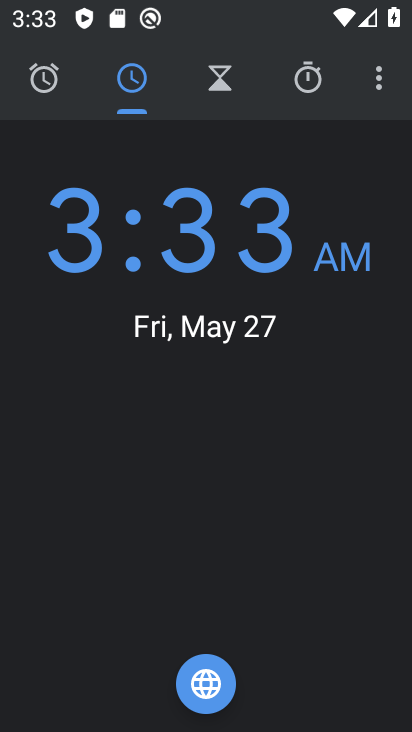
Step 87: click (365, 92)
Your task to perform on an android device: set the timer Image 88: 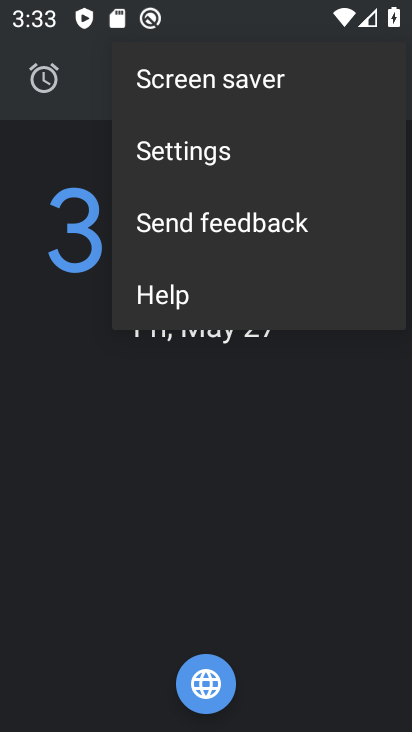
Step 88: click (372, 84)
Your task to perform on an android device: set the timer Image 89: 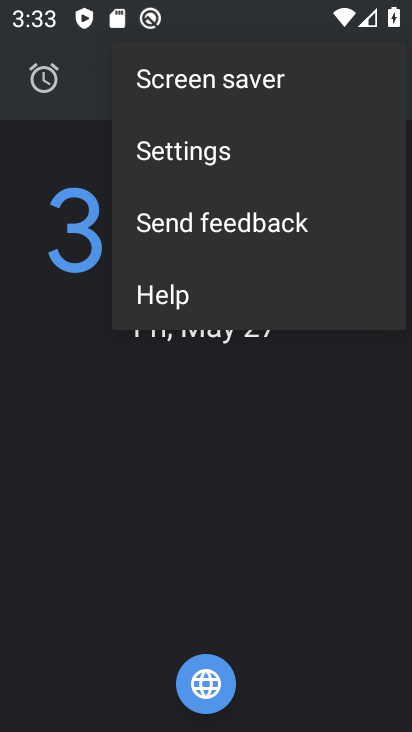
Step 89: click (372, 84)
Your task to perform on an android device: set the timer Image 90: 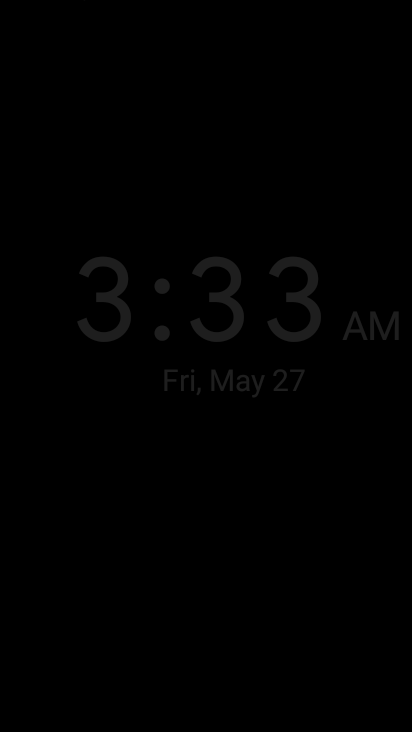
Step 90: click (373, 84)
Your task to perform on an android device: set the timer Image 91: 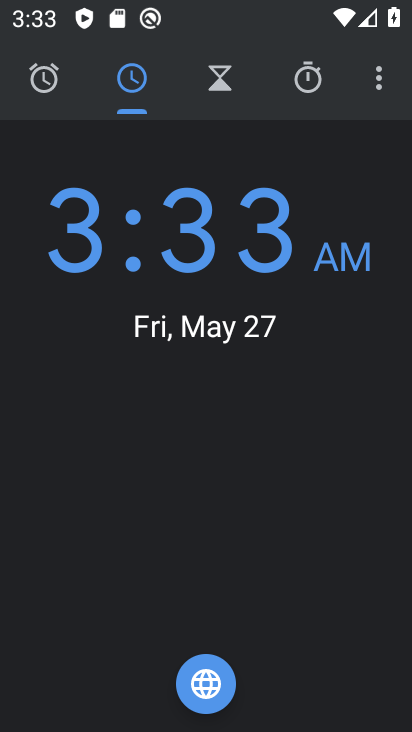
Step 91: press back button
Your task to perform on an android device: set the timer Image 92: 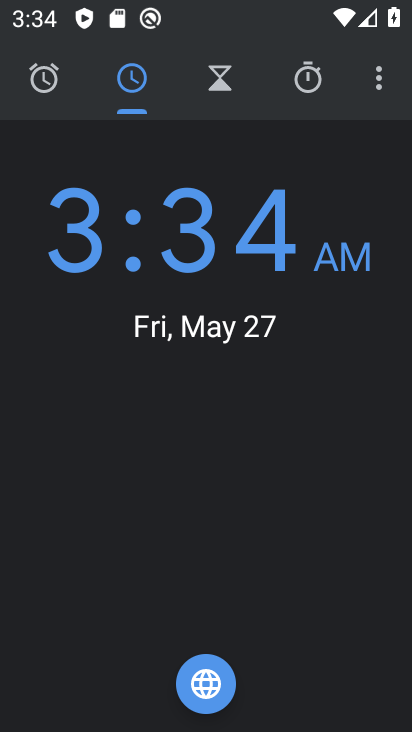
Step 92: press back button
Your task to perform on an android device: set the timer Image 93: 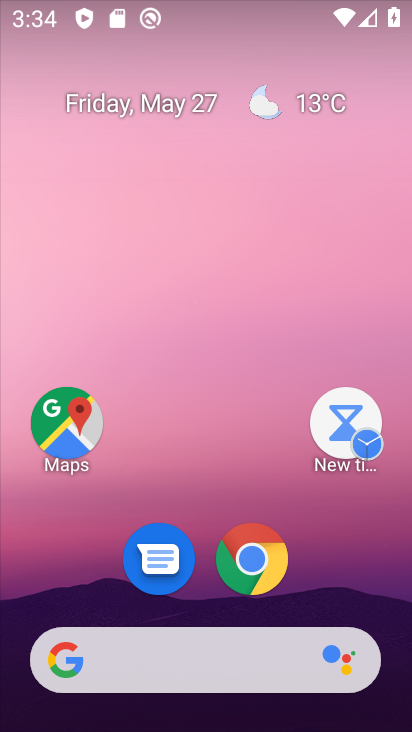
Step 93: drag from (287, 674) to (212, 148)
Your task to perform on an android device: set the timer Image 94: 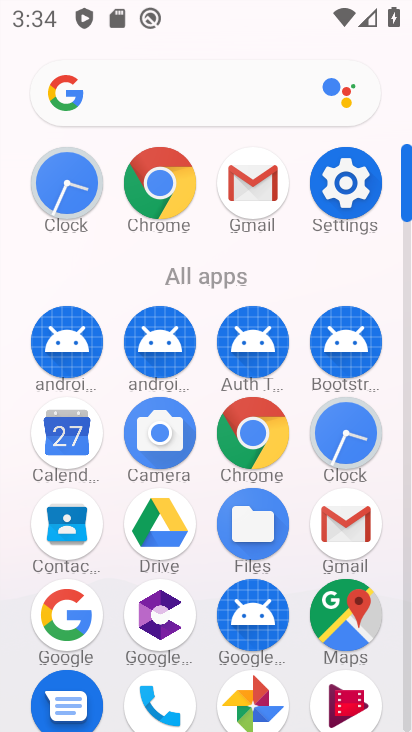
Step 94: click (325, 427)
Your task to perform on an android device: set the timer Image 95: 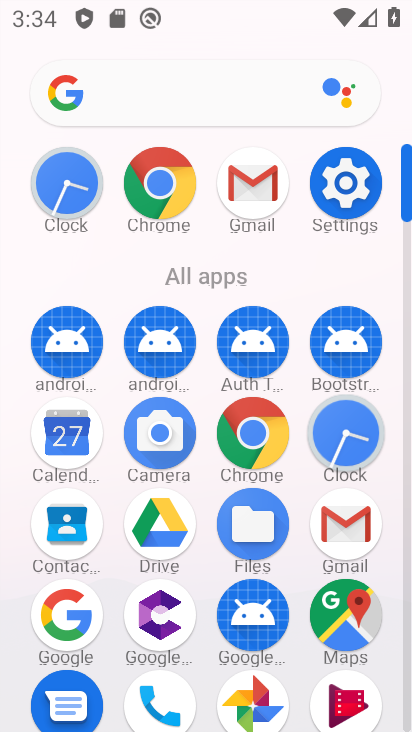
Step 95: click (325, 427)
Your task to perform on an android device: set the timer Image 96: 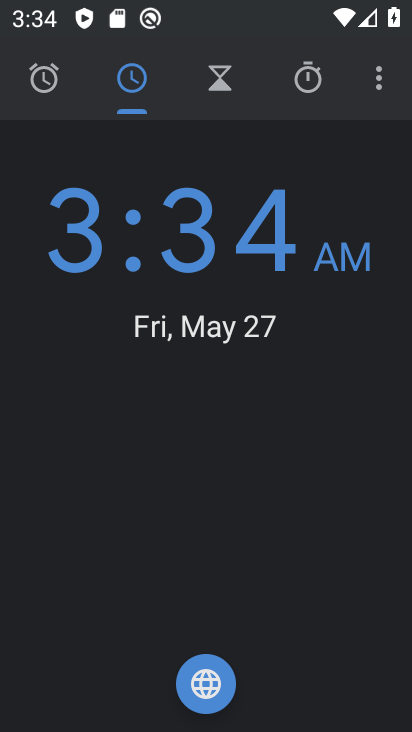
Step 96: click (331, 458)
Your task to perform on an android device: set the timer Image 97: 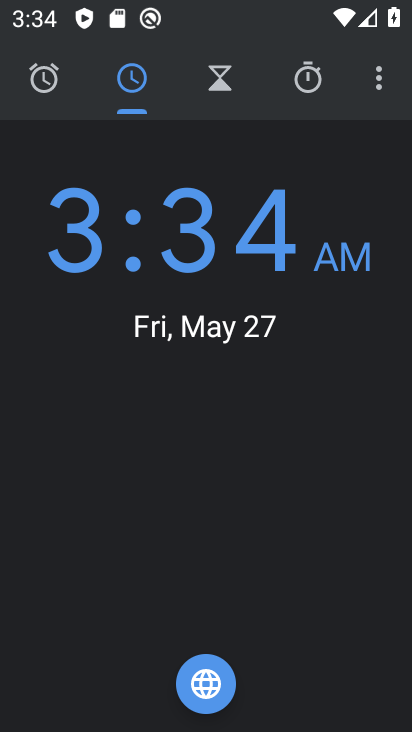
Step 97: click (337, 445)
Your task to perform on an android device: set the timer Image 98: 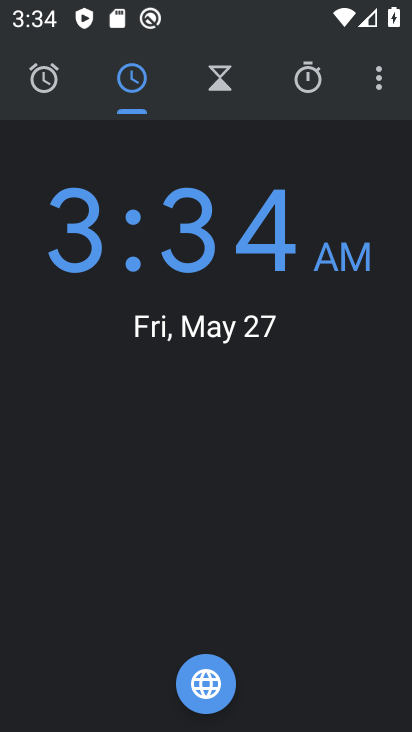
Step 98: click (366, 77)
Your task to perform on an android device: set the timer Image 99: 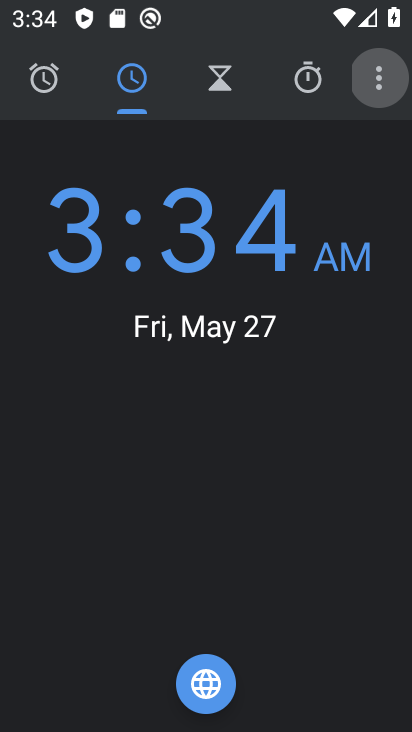
Step 99: click (367, 96)
Your task to perform on an android device: set the timer Image 100: 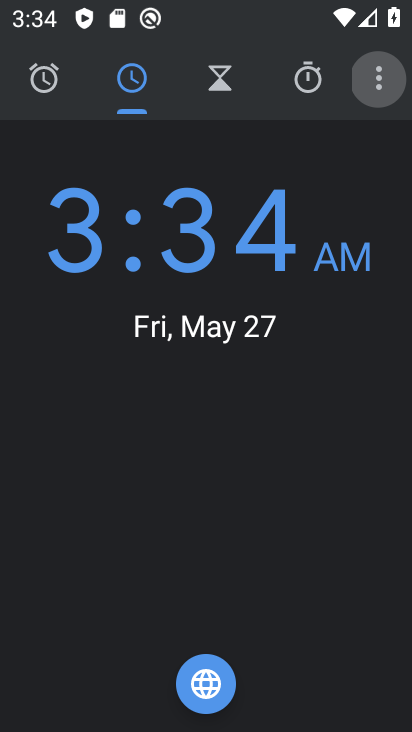
Step 100: click (369, 92)
Your task to perform on an android device: set the timer Image 101: 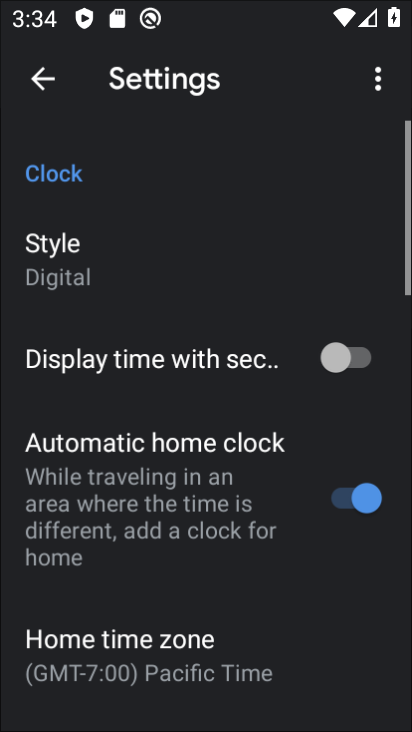
Step 101: click (369, 92)
Your task to perform on an android device: set the timer Image 102: 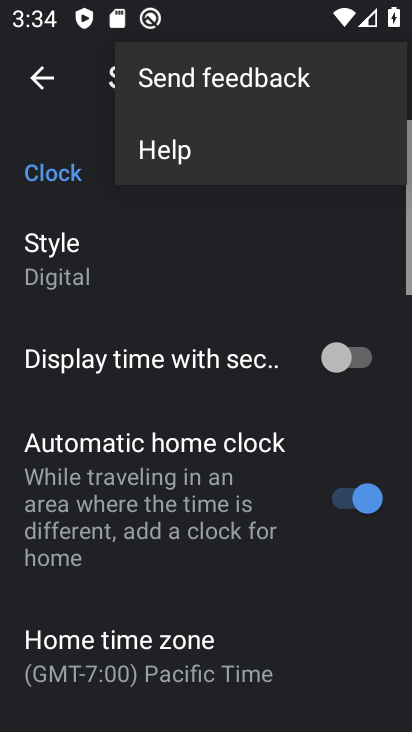
Step 102: click (194, 133)
Your task to perform on an android device: set the timer Image 103: 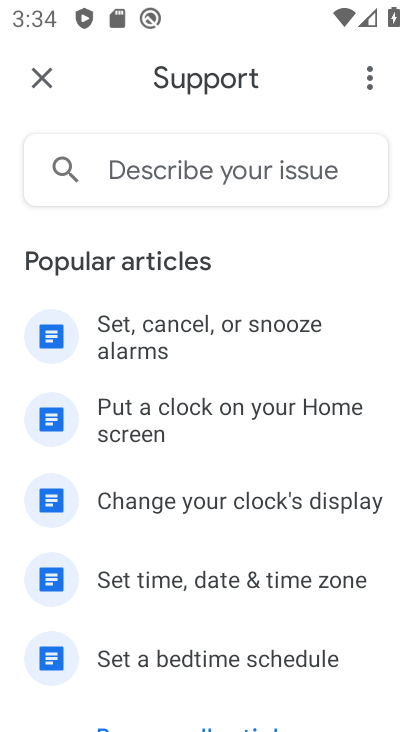
Step 103: click (34, 71)
Your task to perform on an android device: set the timer Image 104: 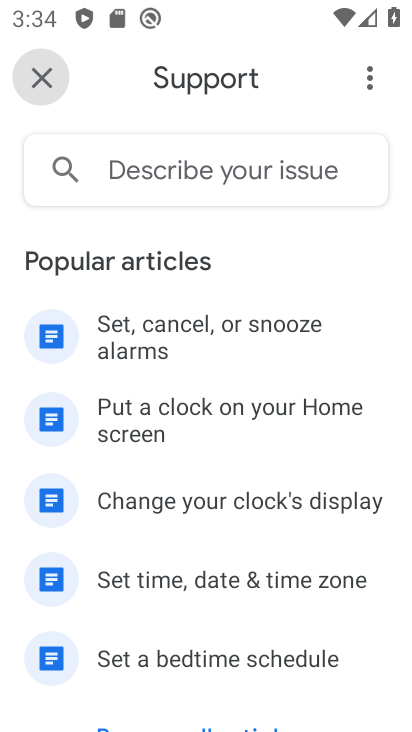
Step 104: click (34, 71)
Your task to perform on an android device: set the timer Image 105: 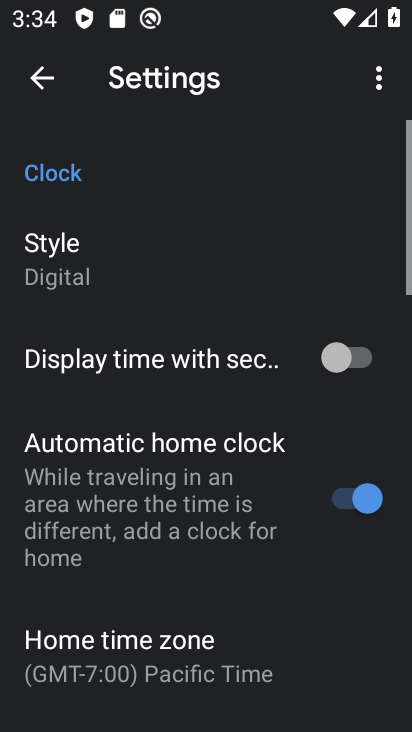
Step 105: click (36, 75)
Your task to perform on an android device: set the timer Image 106: 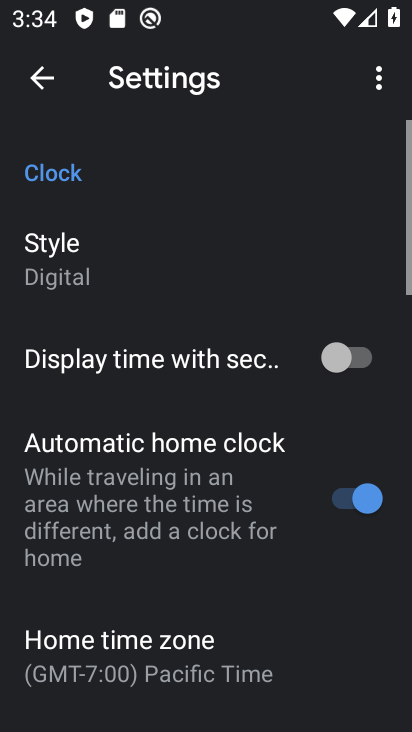
Step 106: click (36, 75)
Your task to perform on an android device: set the timer Image 107: 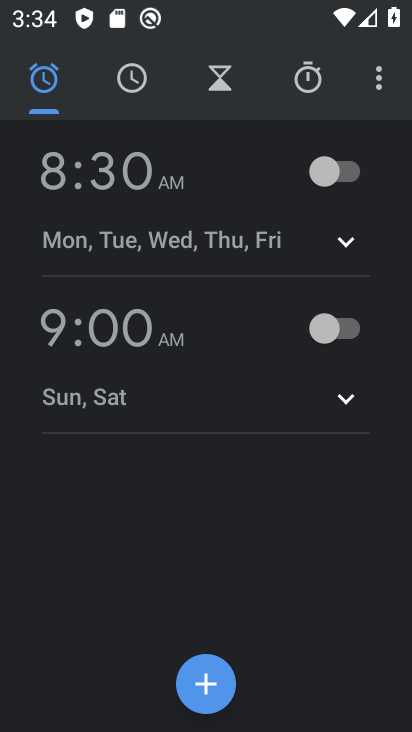
Step 107: task complete